Your task to perform on an android device: Clear the cart on newegg. Add acer predator to the cart on newegg Image 0: 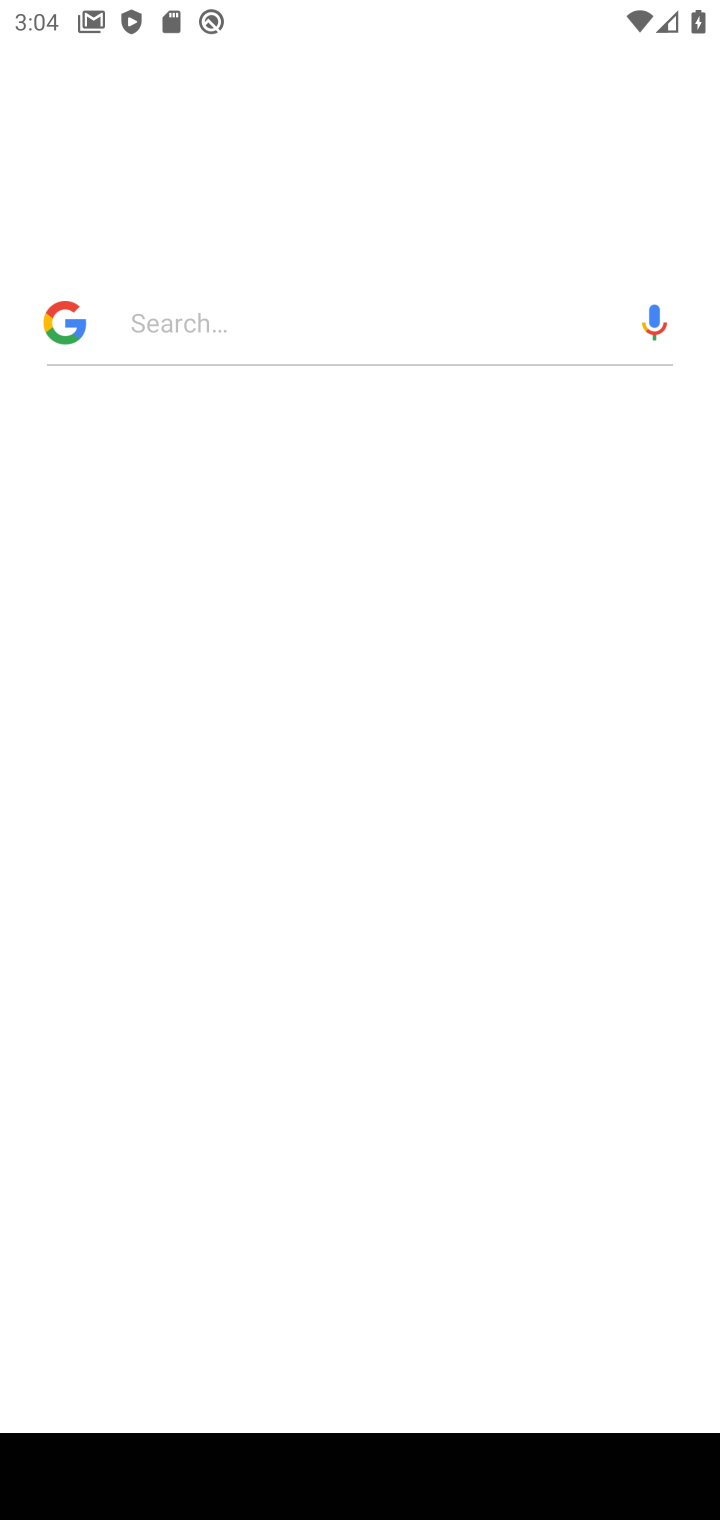
Step 0: press home button
Your task to perform on an android device: Clear the cart on newegg. Add acer predator to the cart on newegg Image 1: 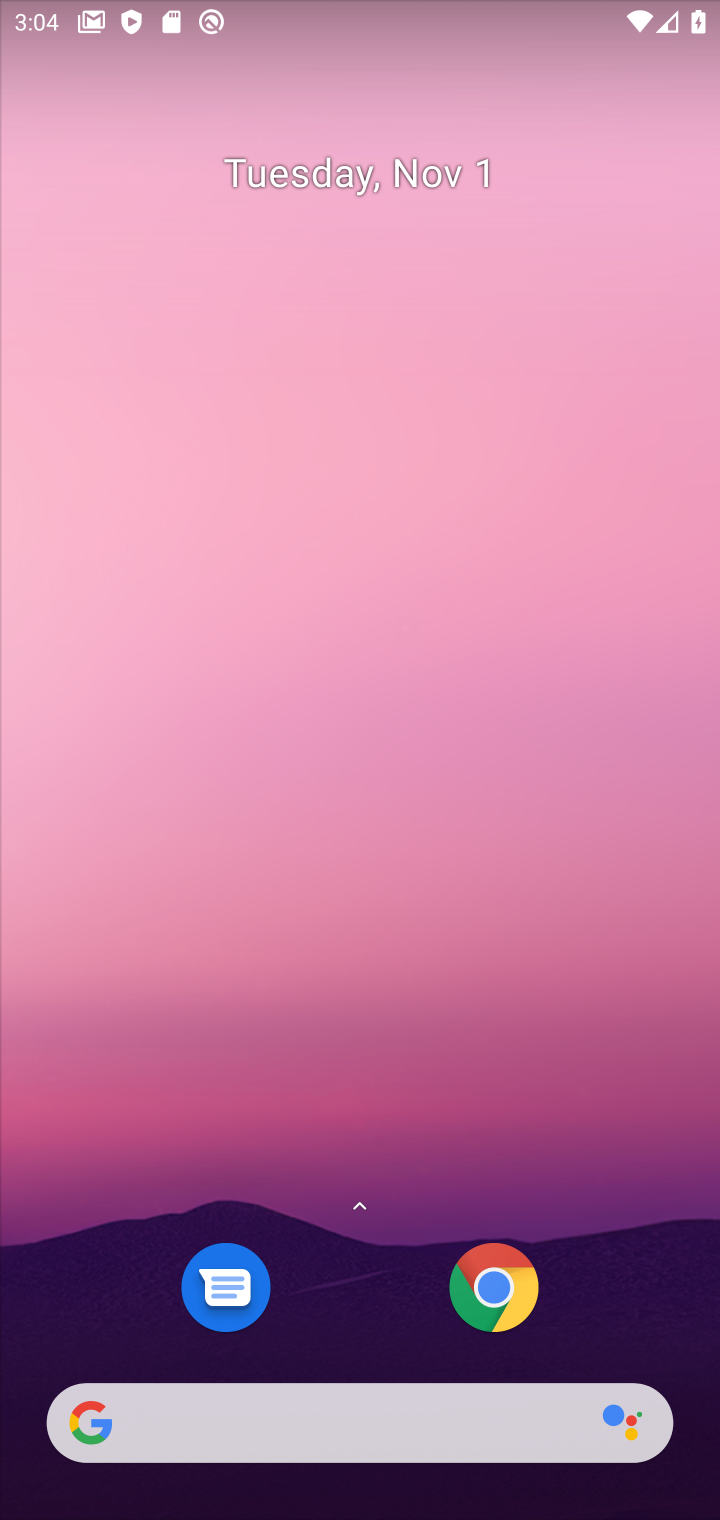
Step 1: drag from (391, 1247) to (530, 132)
Your task to perform on an android device: Clear the cart on newegg. Add acer predator to the cart on newegg Image 2: 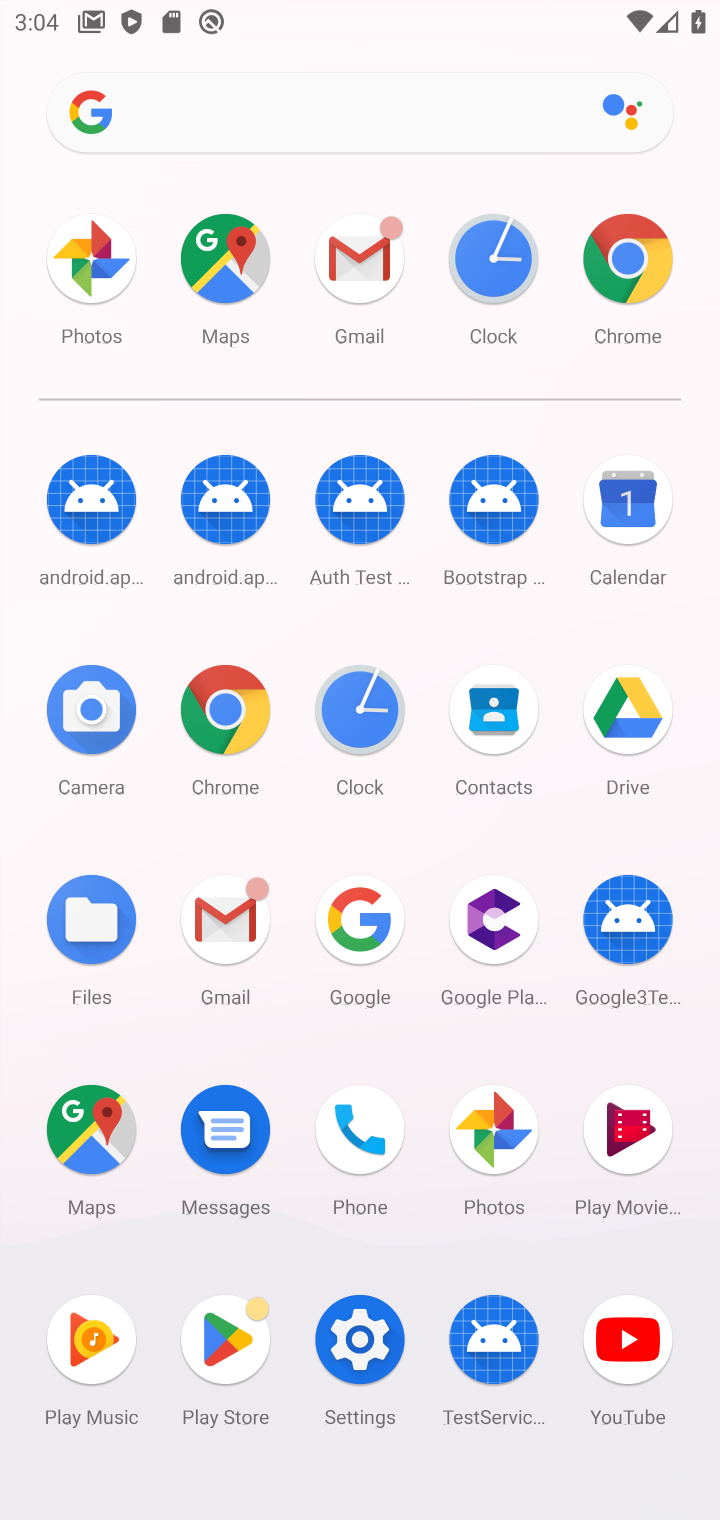
Step 2: click (231, 730)
Your task to perform on an android device: Clear the cart on newegg. Add acer predator to the cart on newegg Image 3: 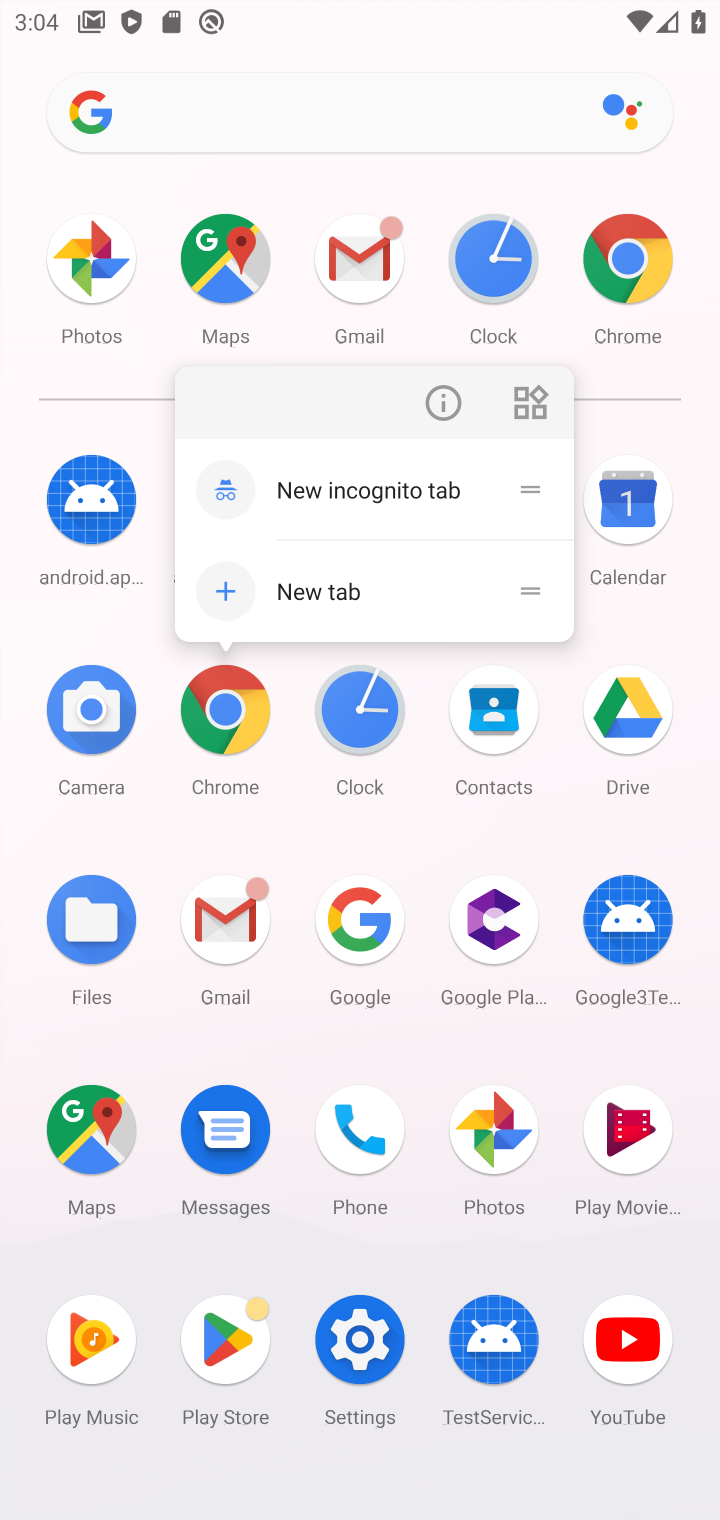
Step 3: click (226, 714)
Your task to perform on an android device: Clear the cart on newegg. Add acer predator to the cart on newegg Image 4: 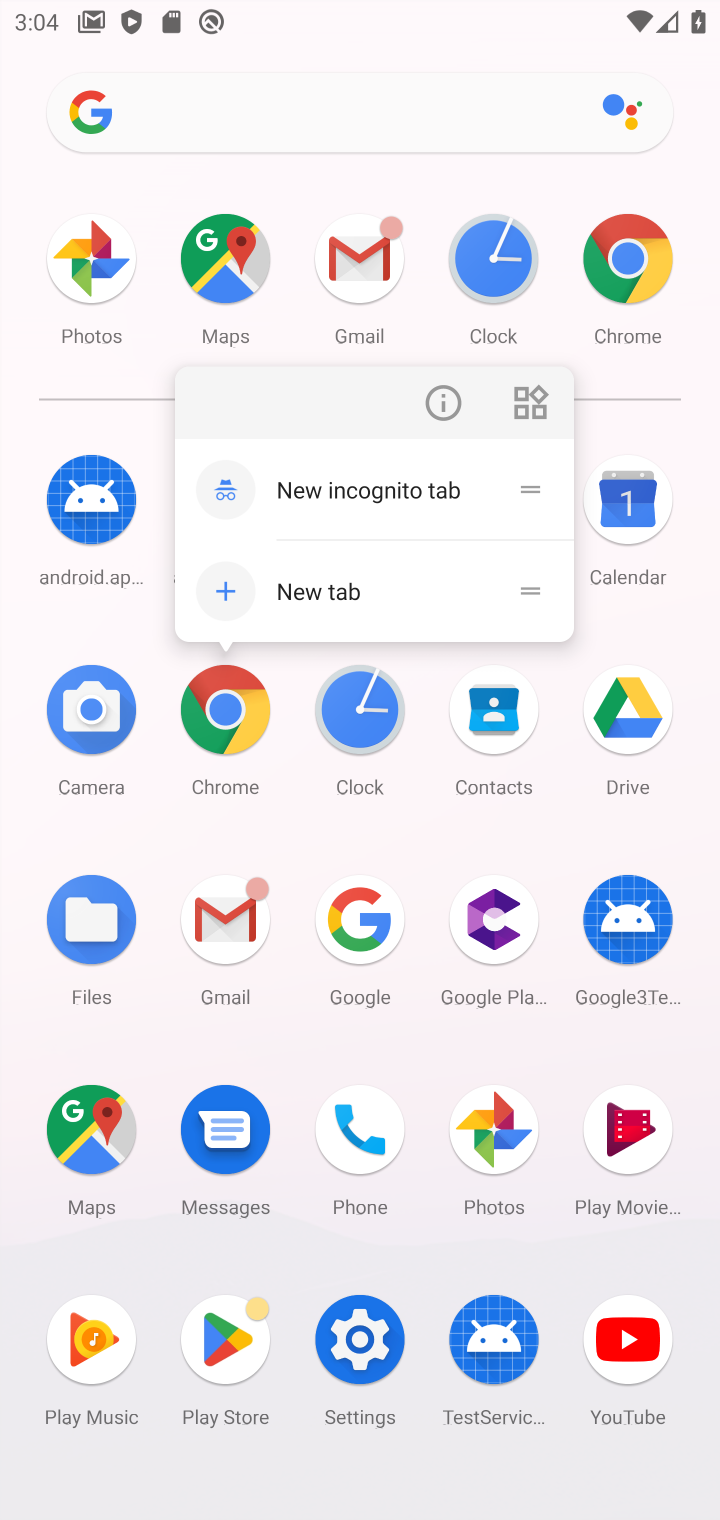
Step 4: click (228, 714)
Your task to perform on an android device: Clear the cart on newegg. Add acer predator to the cart on newegg Image 5: 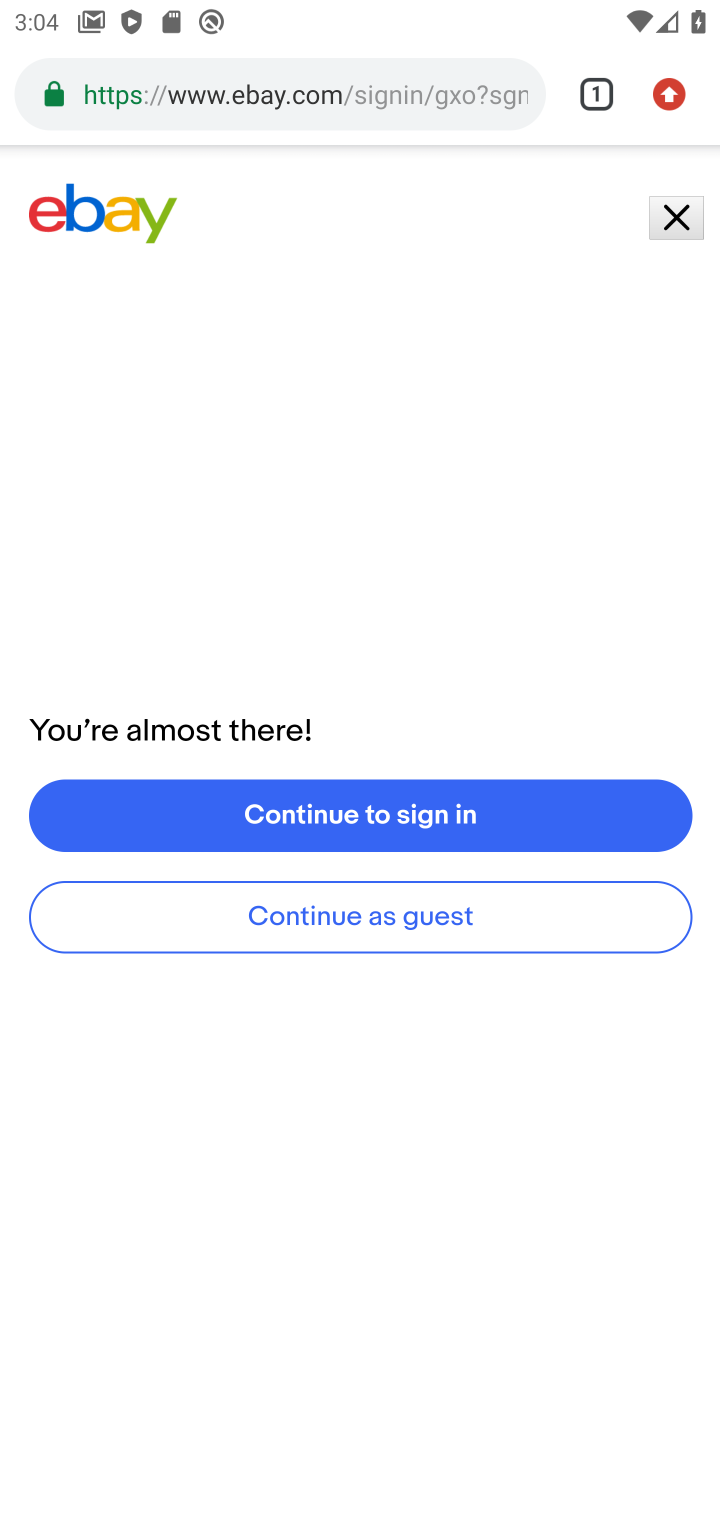
Step 5: click (413, 91)
Your task to perform on an android device: Clear the cart on newegg. Add acer predator to the cart on newegg Image 6: 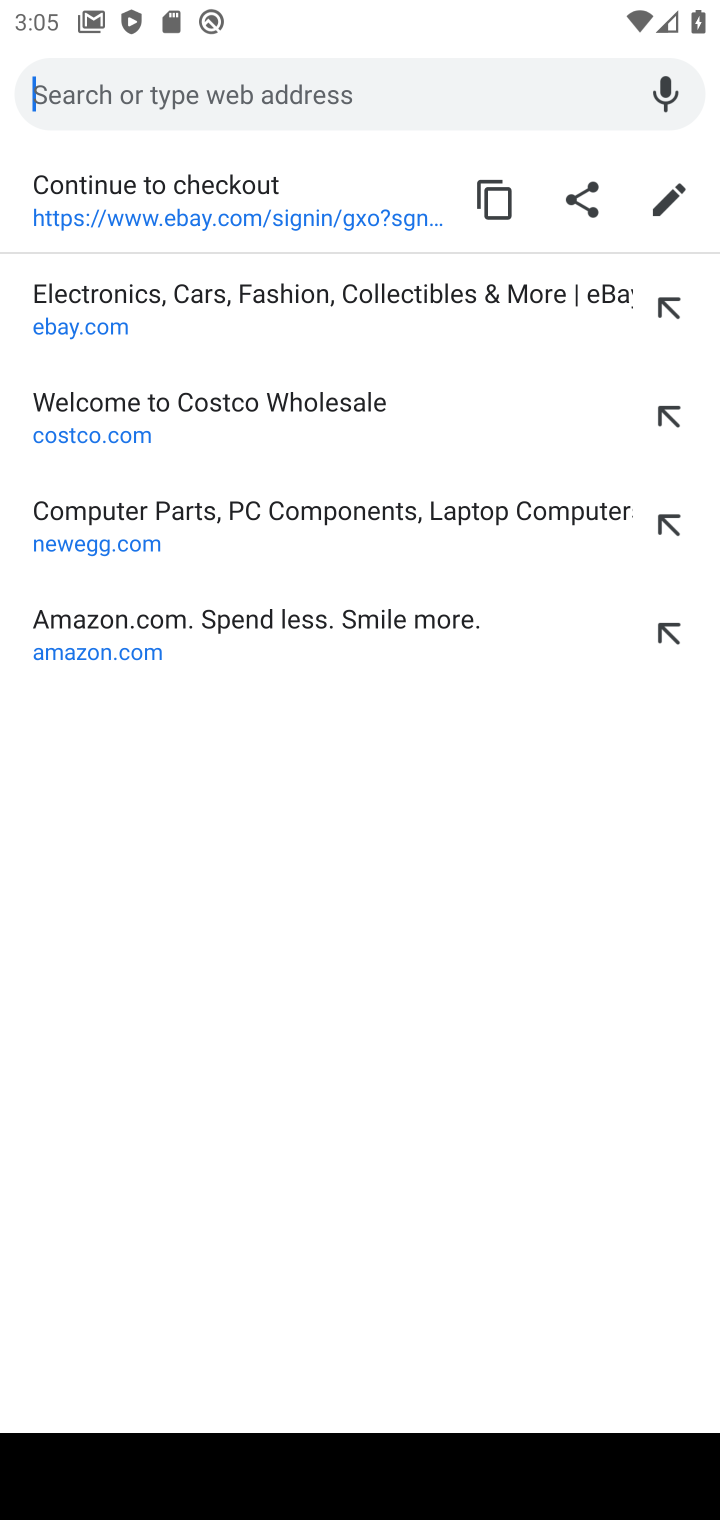
Step 6: type "newegg.com"
Your task to perform on an android device: Clear the cart on newegg. Add acer predator to the cart on newegg Image 7: 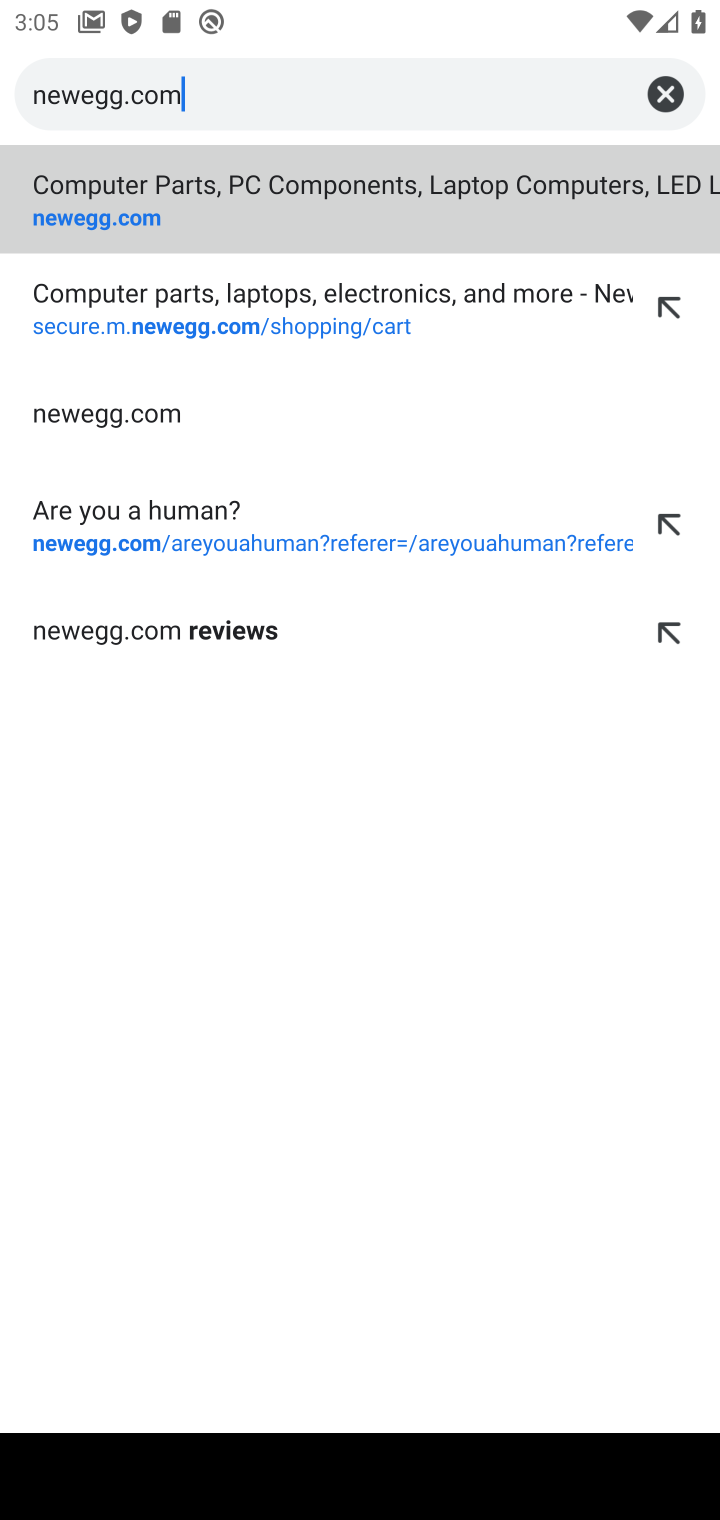
Step 7: press enter
Your task to perform on an android device: Clear the cart on newegg. Add acer predator to the cart on newegg Image 8: 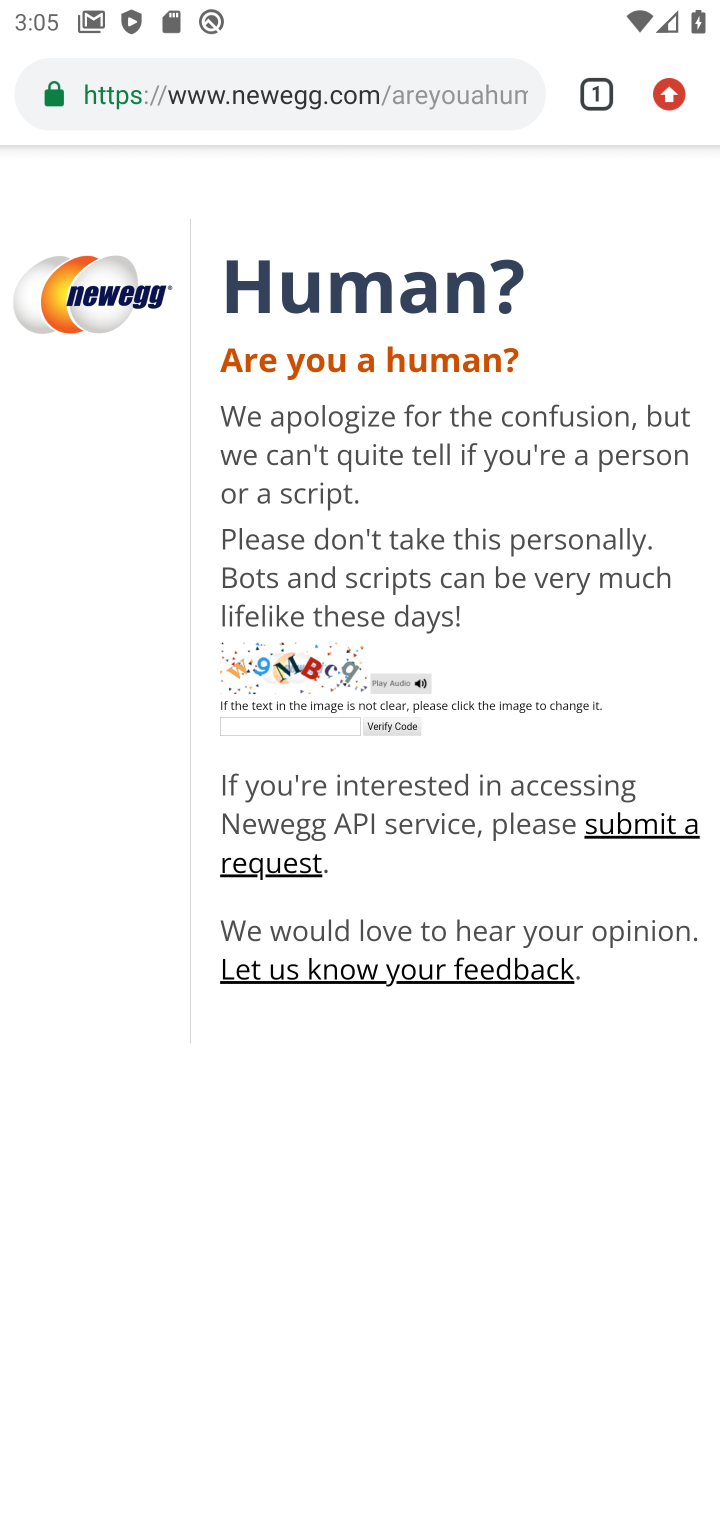
Step 8: click (309, 741)
Your task to perform on an android device: Clear the cart on newegg. Add acer predator to the cart on newegg Image 9: 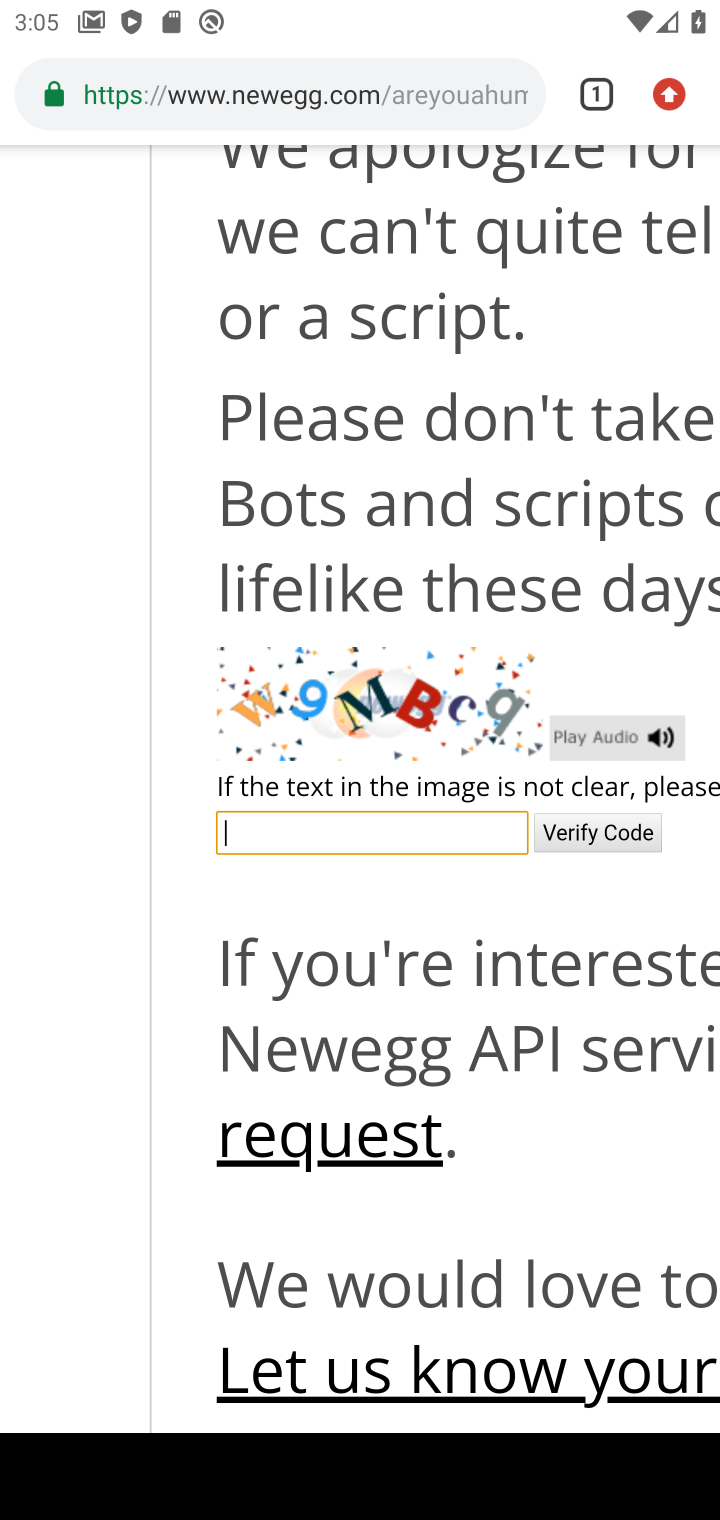
Step 9: type "W9"
Your task to perform on an android device: Clear the cart on newegg. Add acer predator to the cart on newegg Image 10: 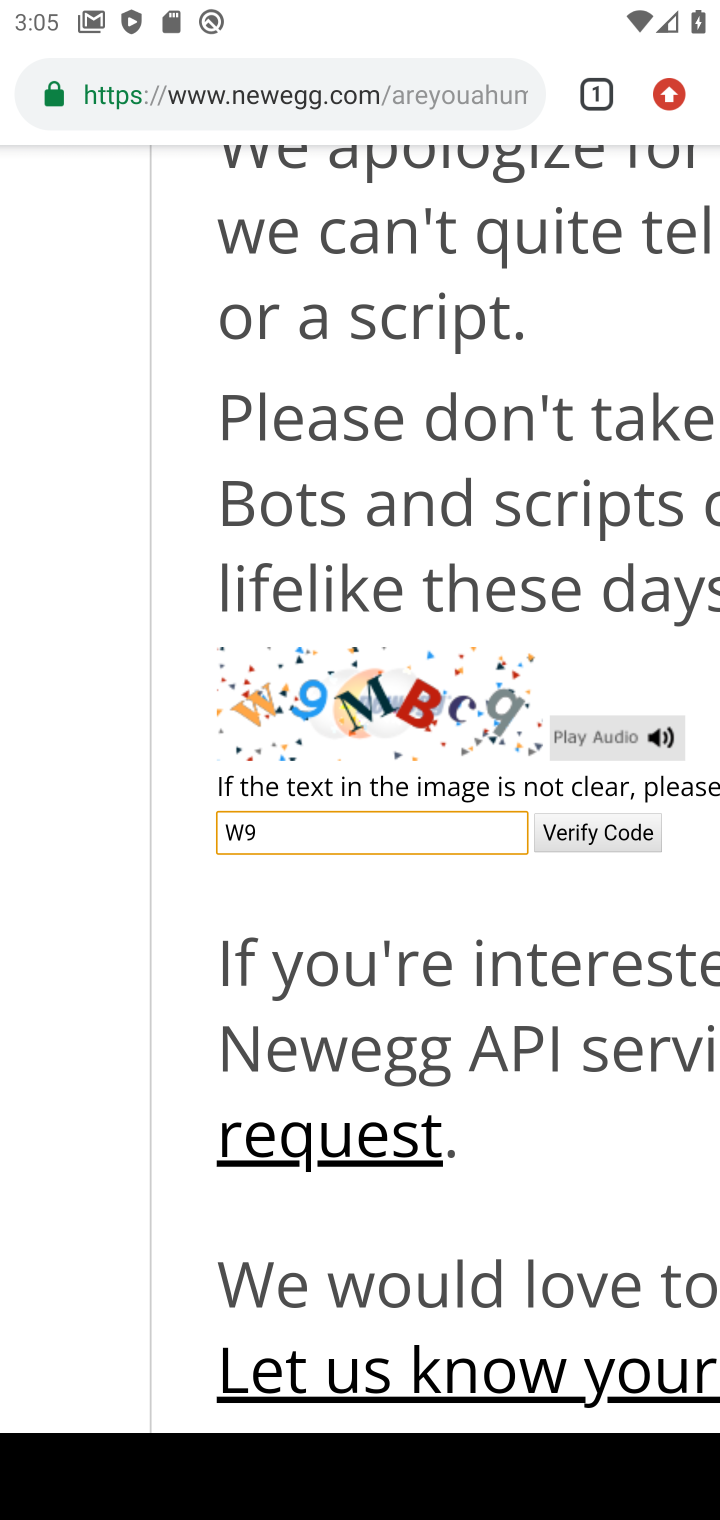
Step 10: type "MBcq"
Your task to perform on an android device: Clear the cart on newegg. Add acer predator to the cart on newegg Image 11: 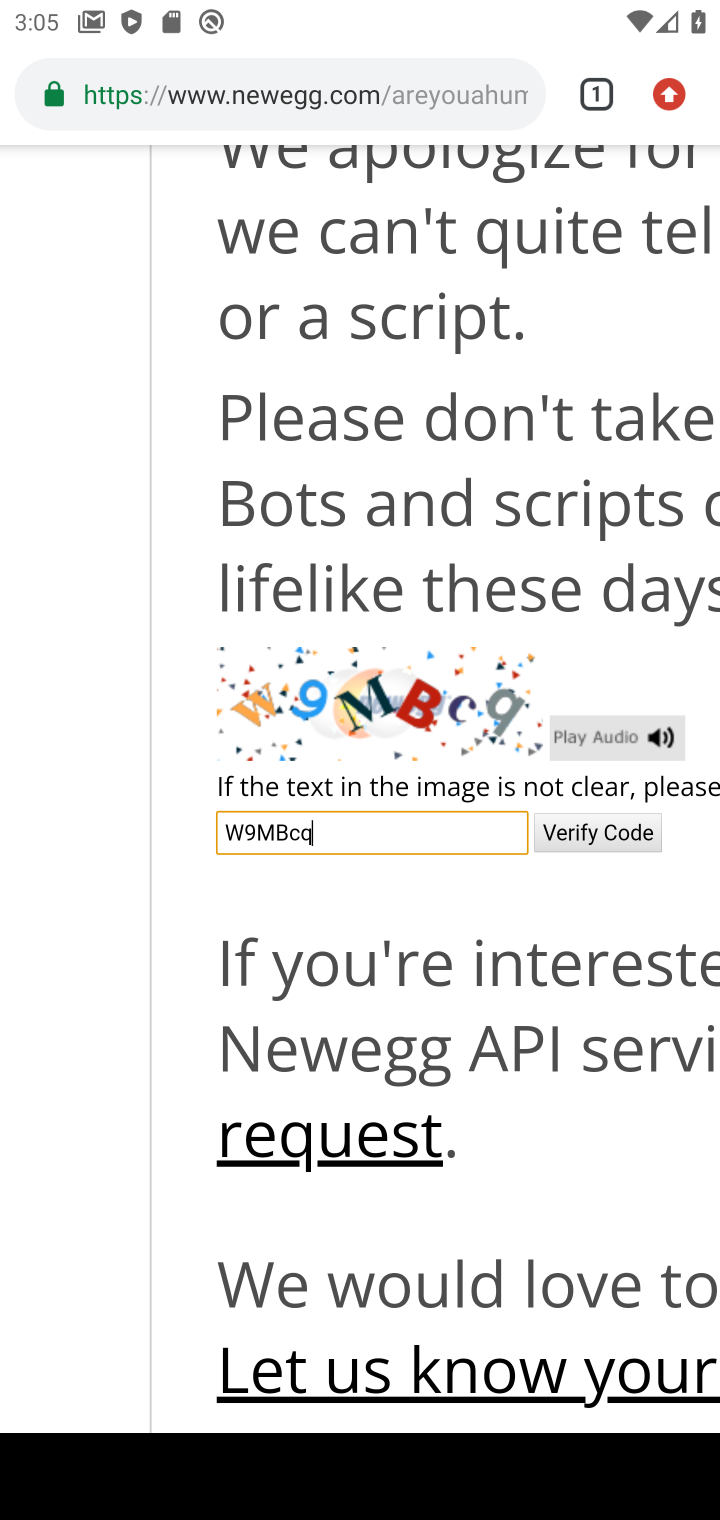
Step 11: click (627, 833)
Your task to perform on an android device: Clear the cart on newegg. Add acer predator to the cart on newegg Image 12: 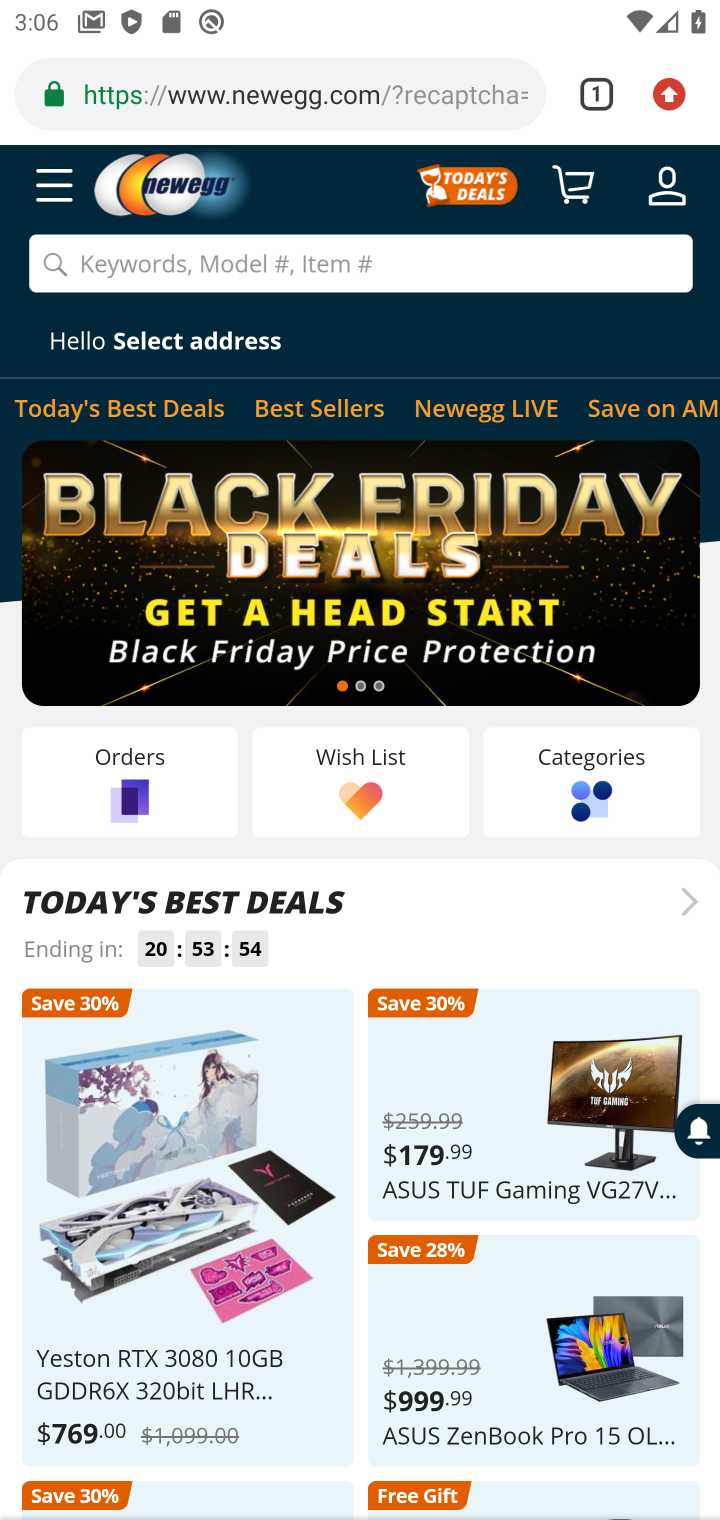
Step 12: drag from (492, 1198) to (616, 479)
Your task to perform on an android device: Clear the cart on newegg. Add acer predator to the cart on newegg Image 13: 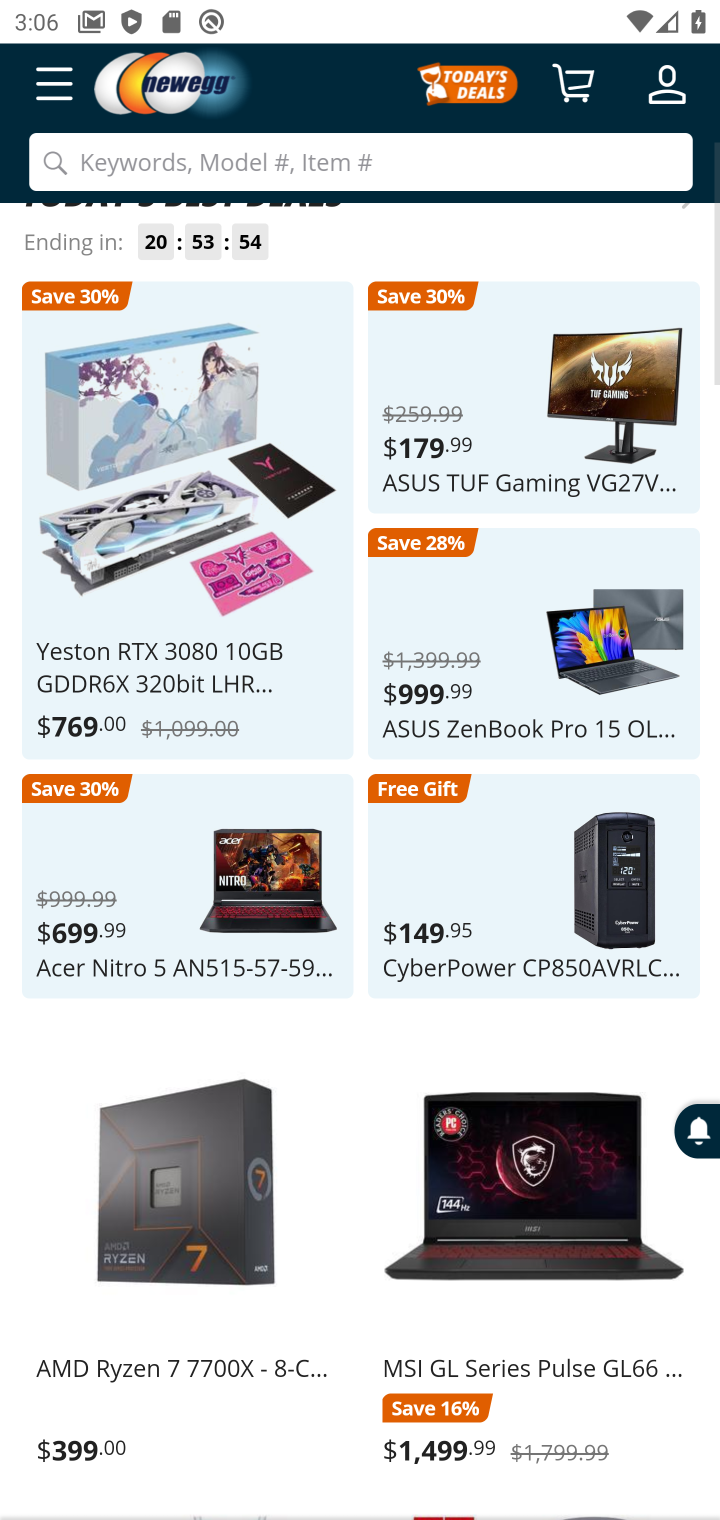
Step 13: drag from (424, 1234) to (460, 621)
Your task to perform on an android device: Clear the cart on newegg. Add acer predator to the cart on newegg Image 14: 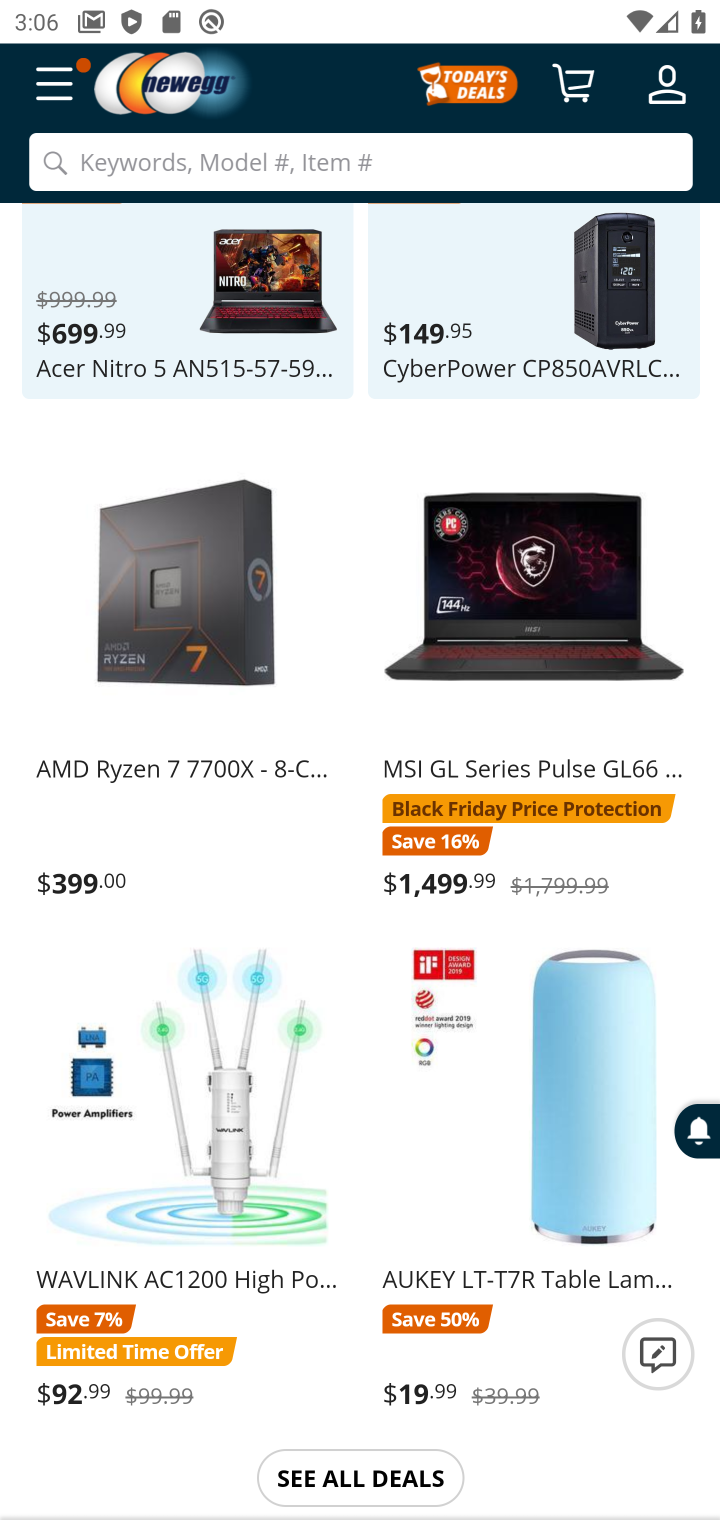
Step 14: drag from (455, 669) to (401, 1227)
Your task to perform on an android device: Clear the cart on newegg. Add acer predator to the cart on newegg Image 15: 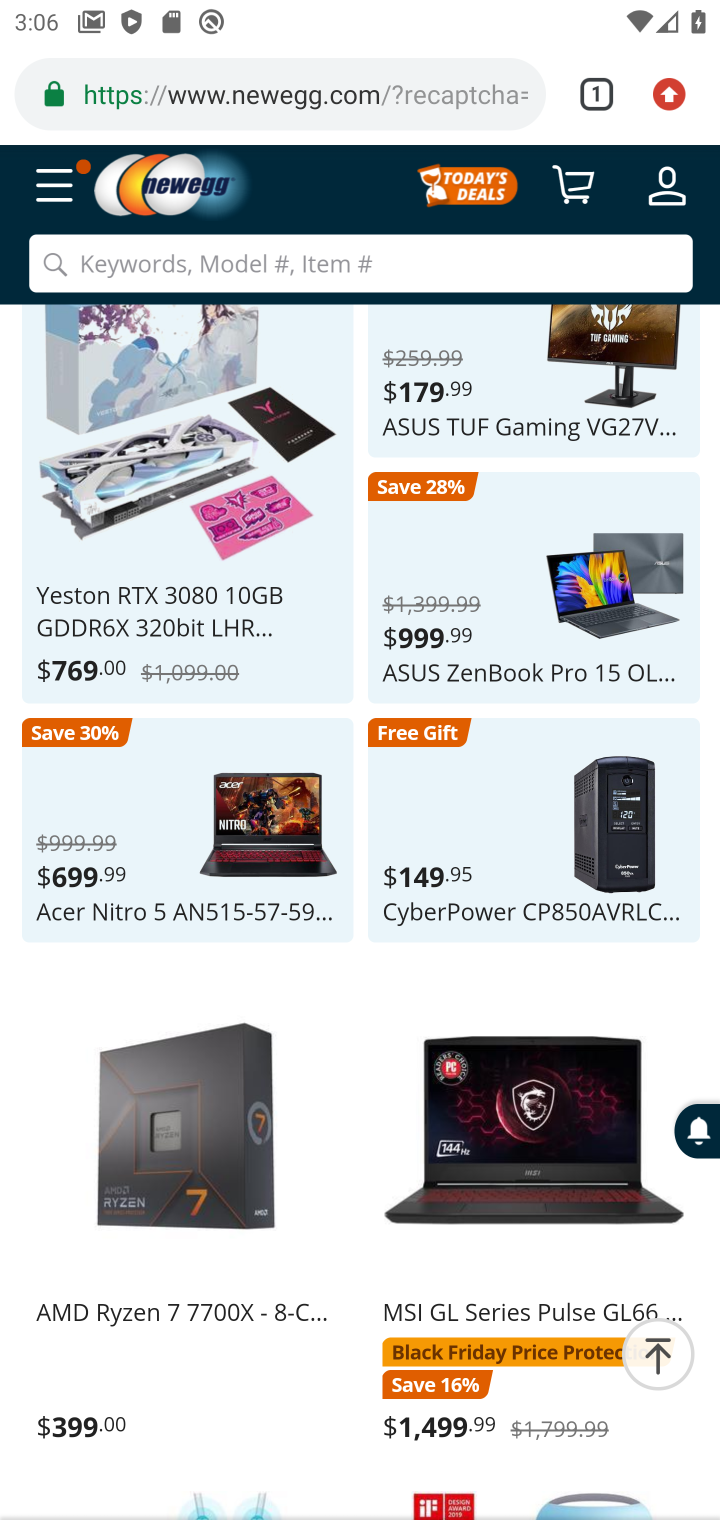
Step 15: click (579, 179)
Your task to perform on an android device: Clear the cart on newegg. Add acer predator to the cart on newegg Image 16: 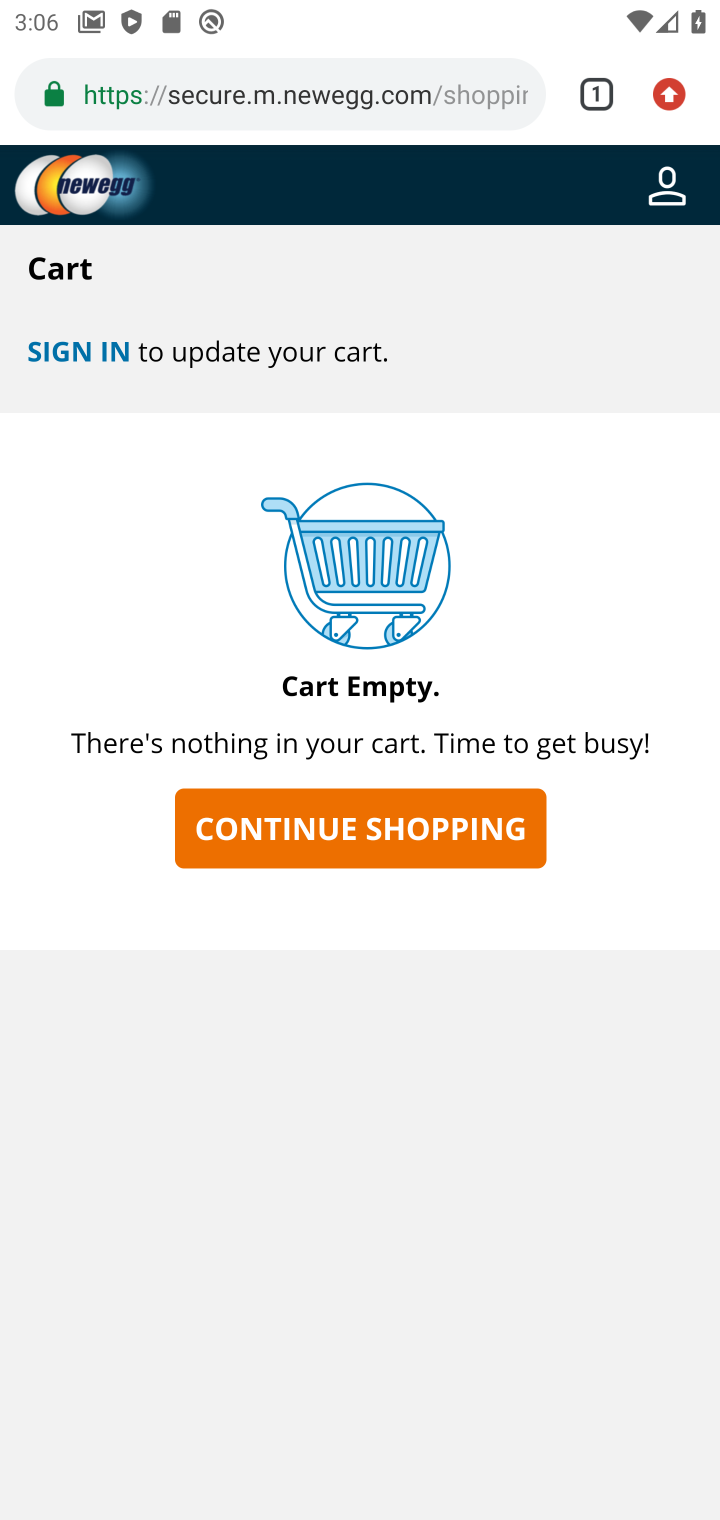
Step 16: click (367, 800)
Your task to perform on an android device: Clear the cart on newegg. Add acer predator to the cart on newegg Image 17: 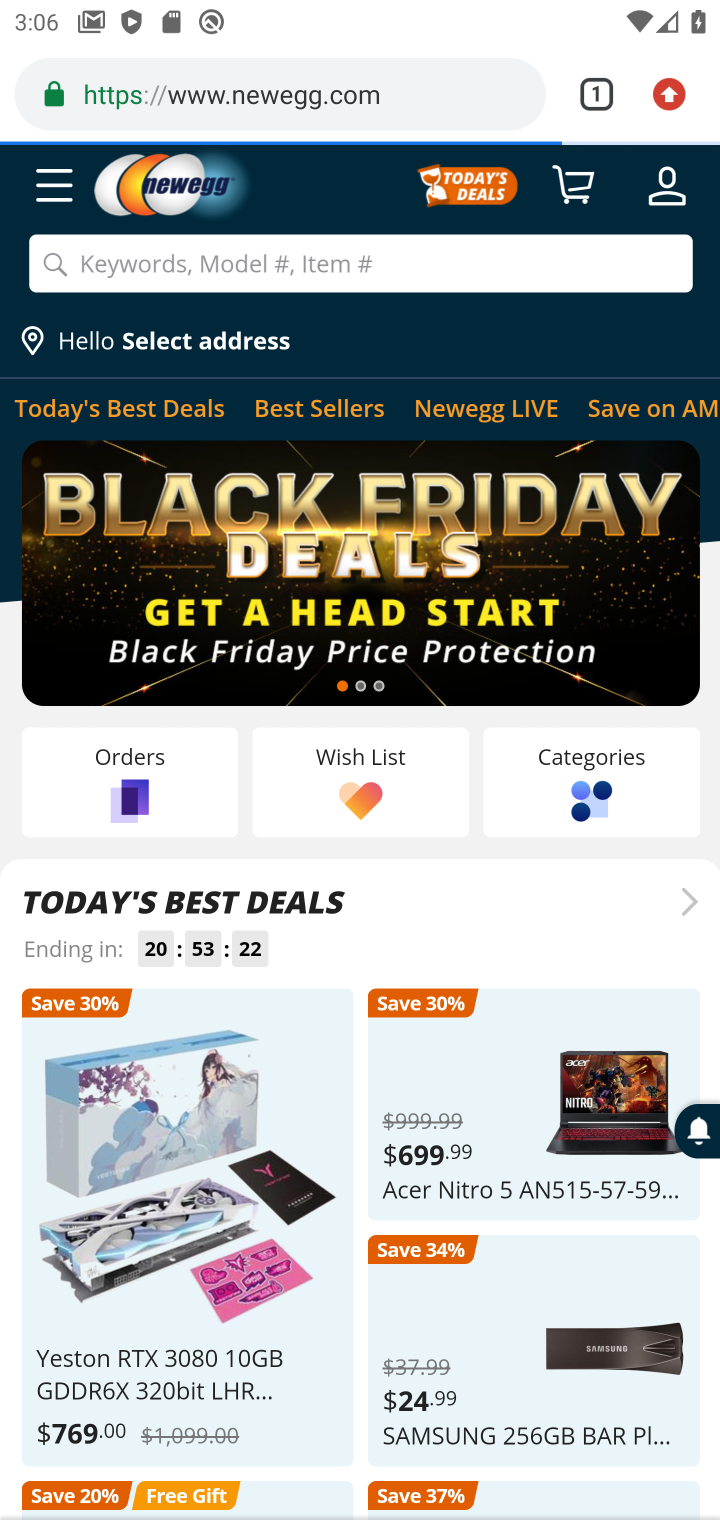
Step 17: click (391, 276)
Your task to perform on an android device: Clear the cart on newegg. Add acer predator to the cart on newegg Image 18: 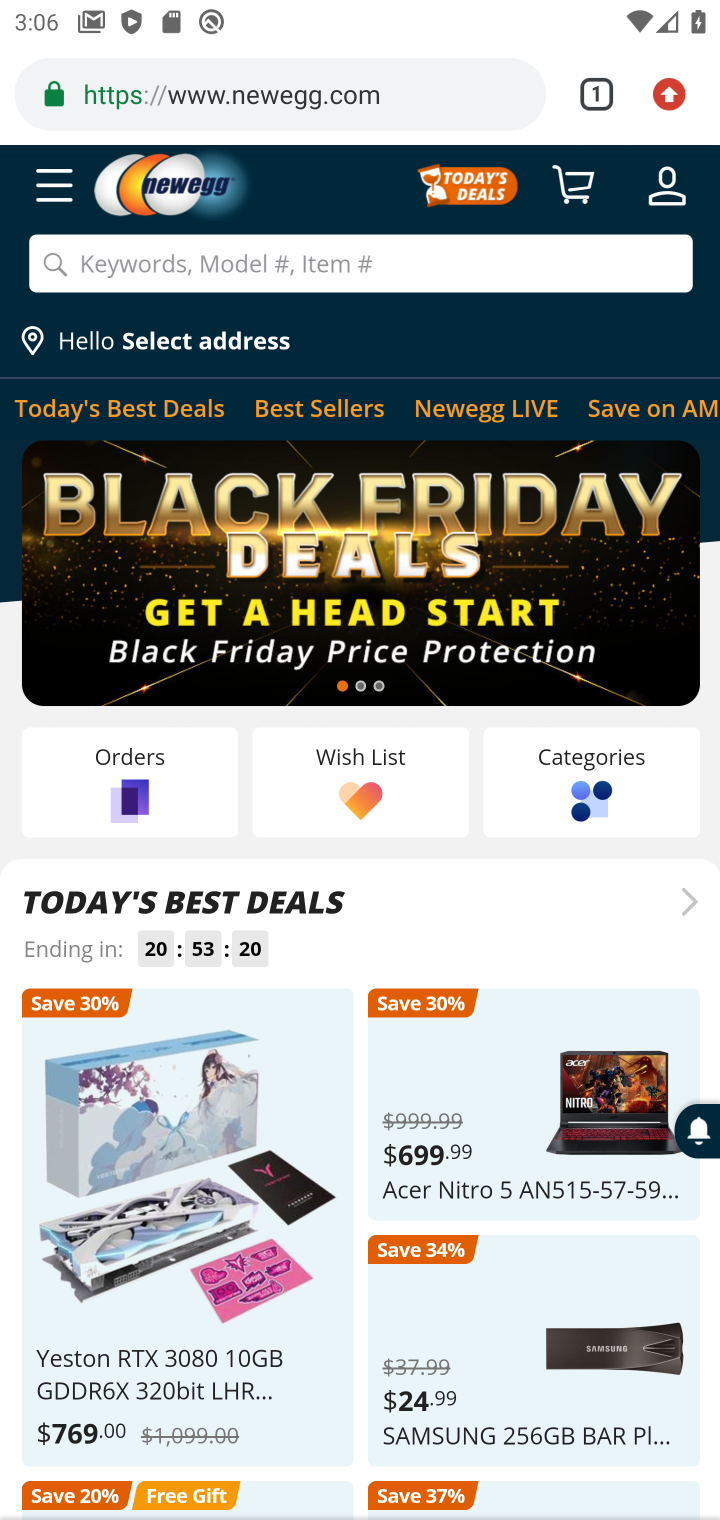
Step 18: click (601, 271)
Your task to perform on an android device: Clear the cart on newegg. Add acer predator to the cart on newegg Image 19: 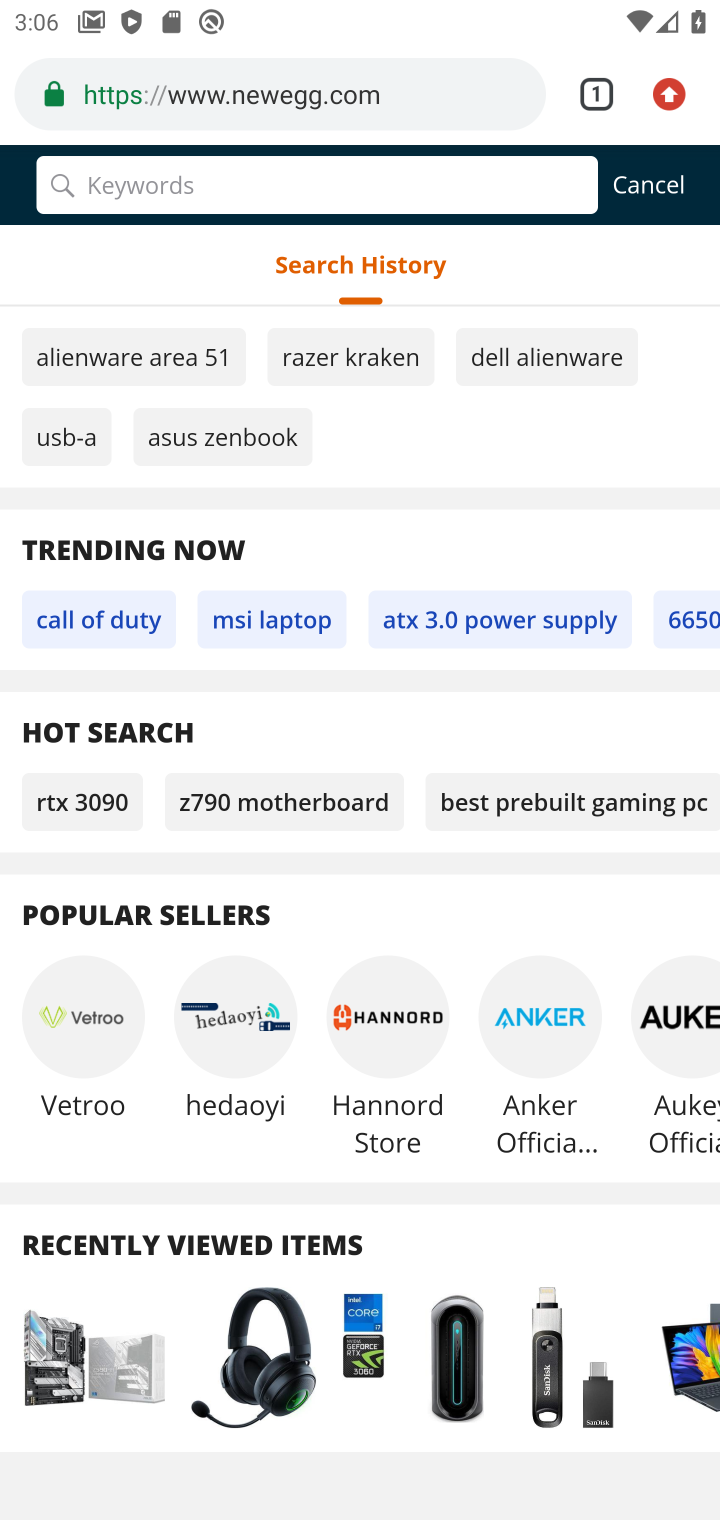
Step 19: click (422, 205)
Your task to perform on an android device: Clear the cart on newegg. Add acer predator to the cart on newegg Image 20: 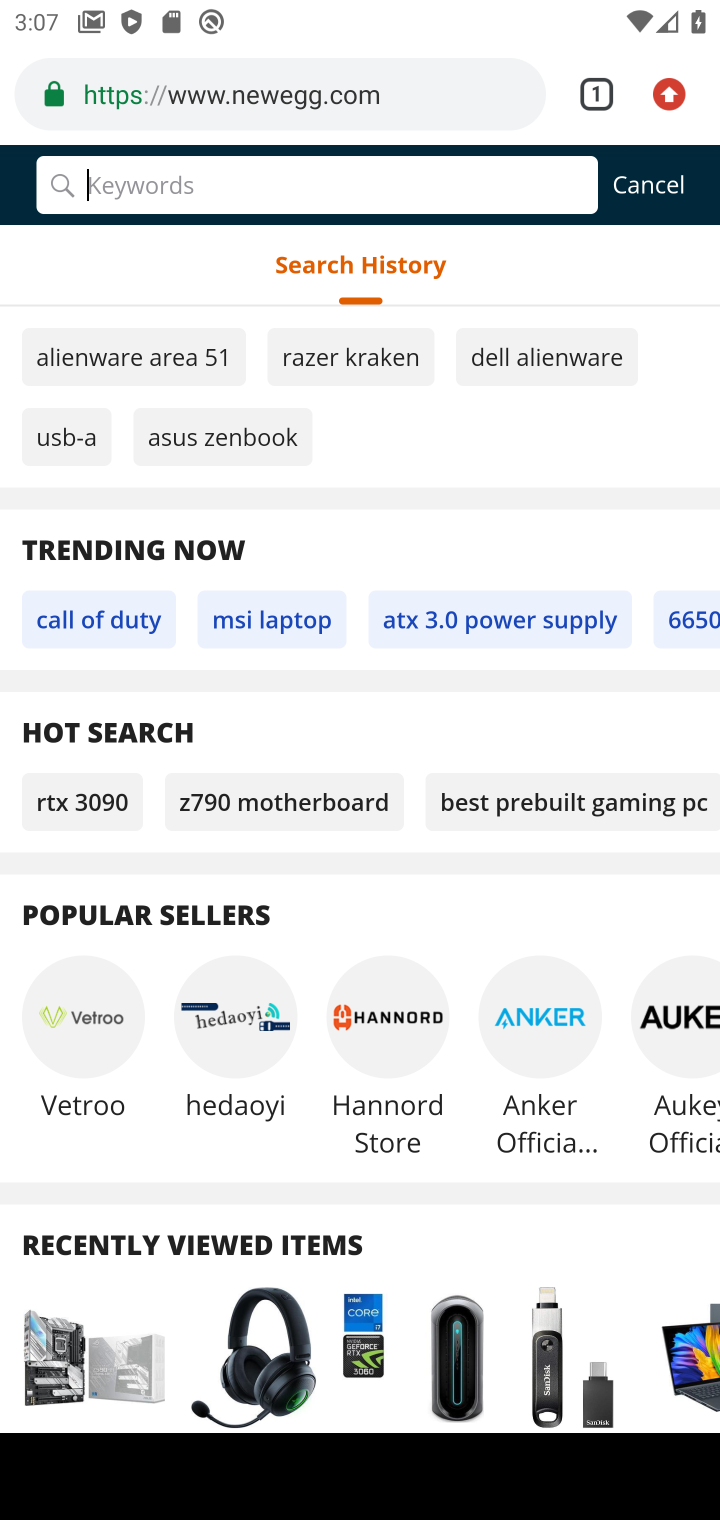
Step 20: type "acer predator"
Your task to perform on an android device: Clear the cart on newegg. Add acer predator to the cart on newegg Image 21: 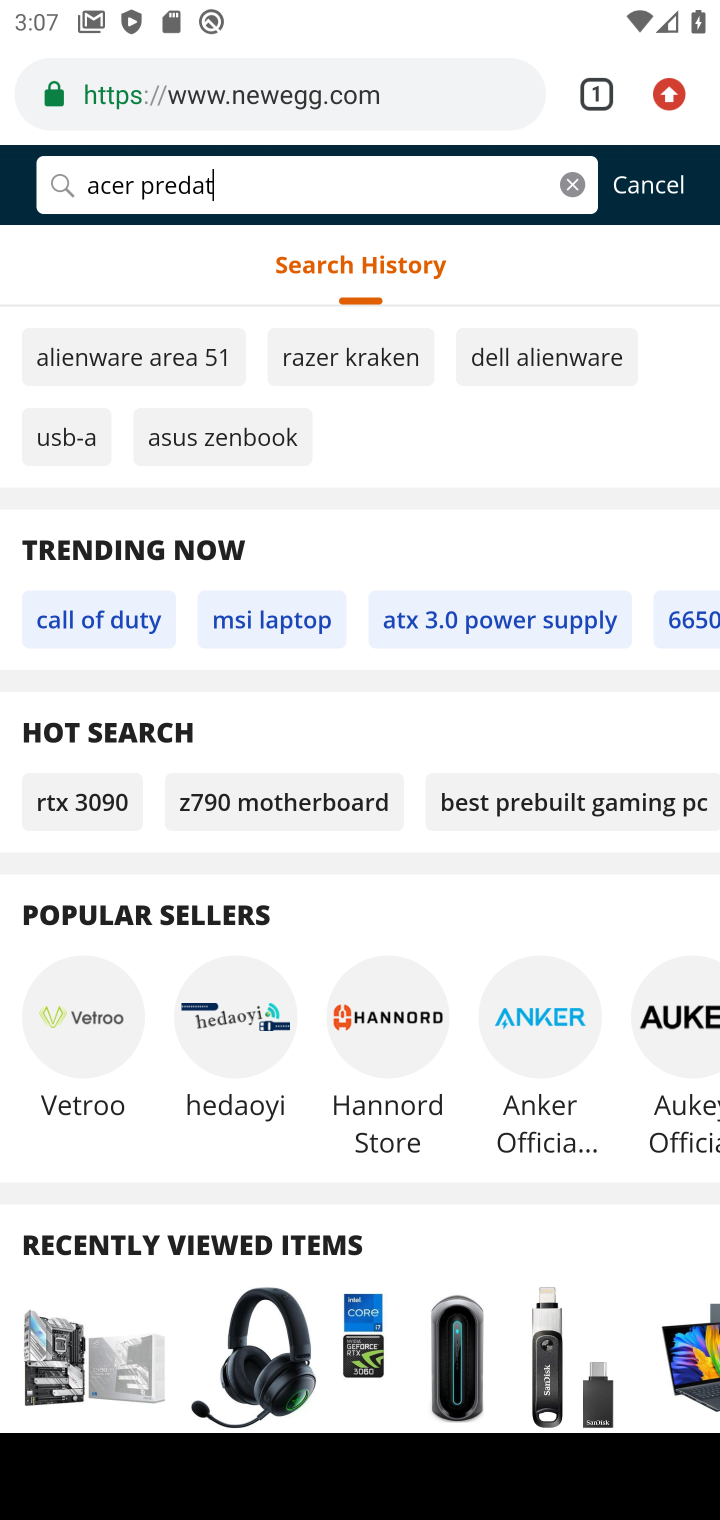
Step 21: press enter
Your task to perform on an android device: Clear the cart on newegg. Add acer predator to the cart on newegg Image 22: 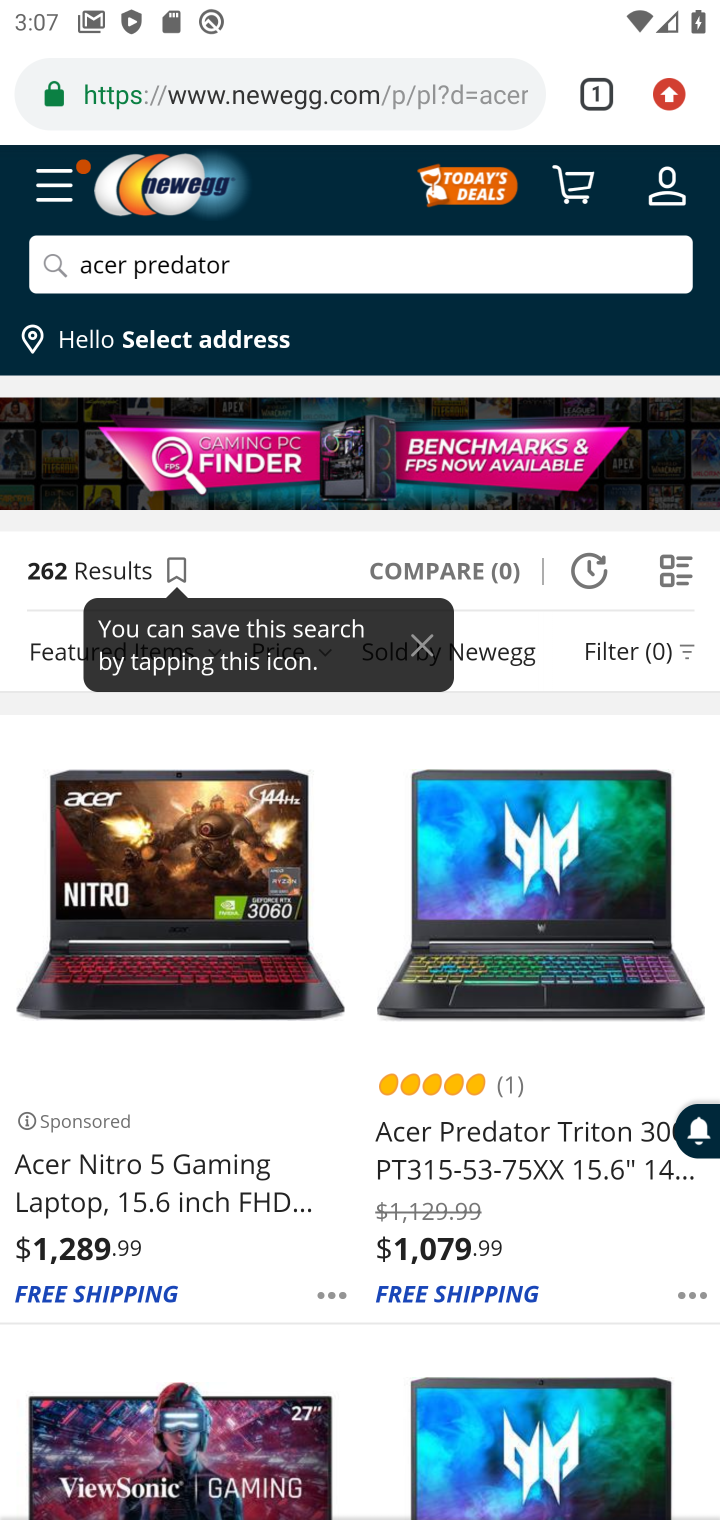
Step 22: click (535, 946)
Your task to perform on an android device: Clear the cart on newegg. Add acer predator to the cart on newegg Image 23: 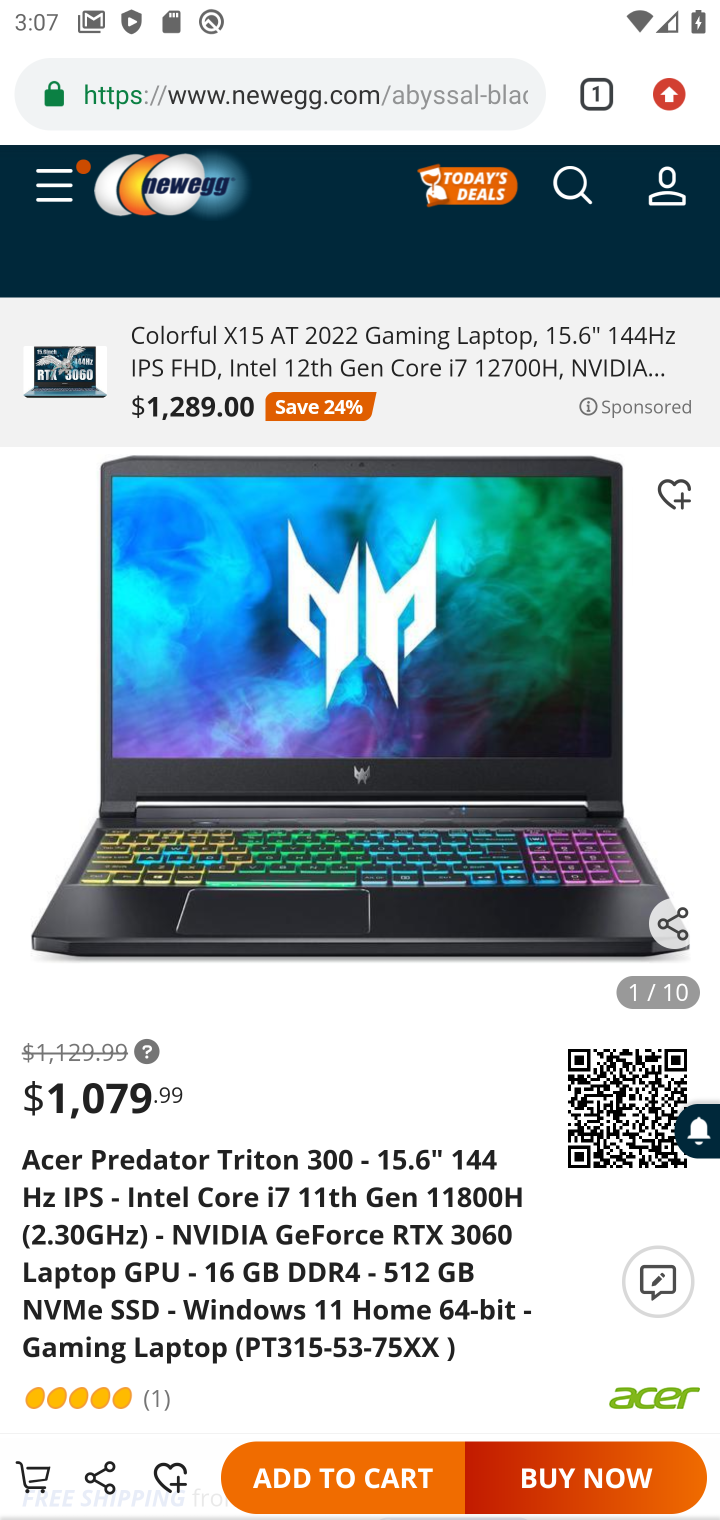
Step 23: click (322, 1482)
Your task to perform on an android device: Clear the cart on newegg. Add acer predator to the cart on newegg Image 24: 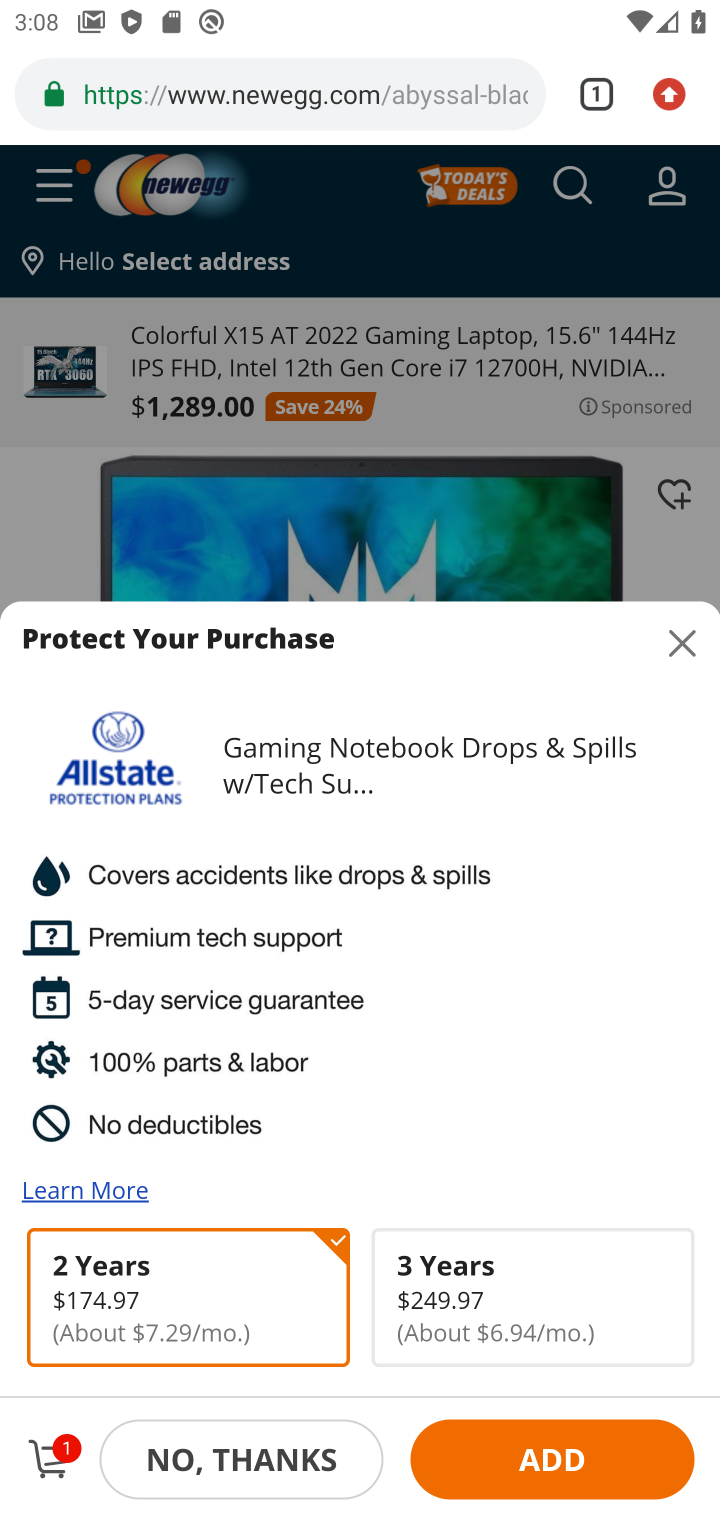
Step 24: click (51, 1467)
Your task to perform on an android device: Clear the cart on newegg. Add acer predator to the cart on newegg Image 25: 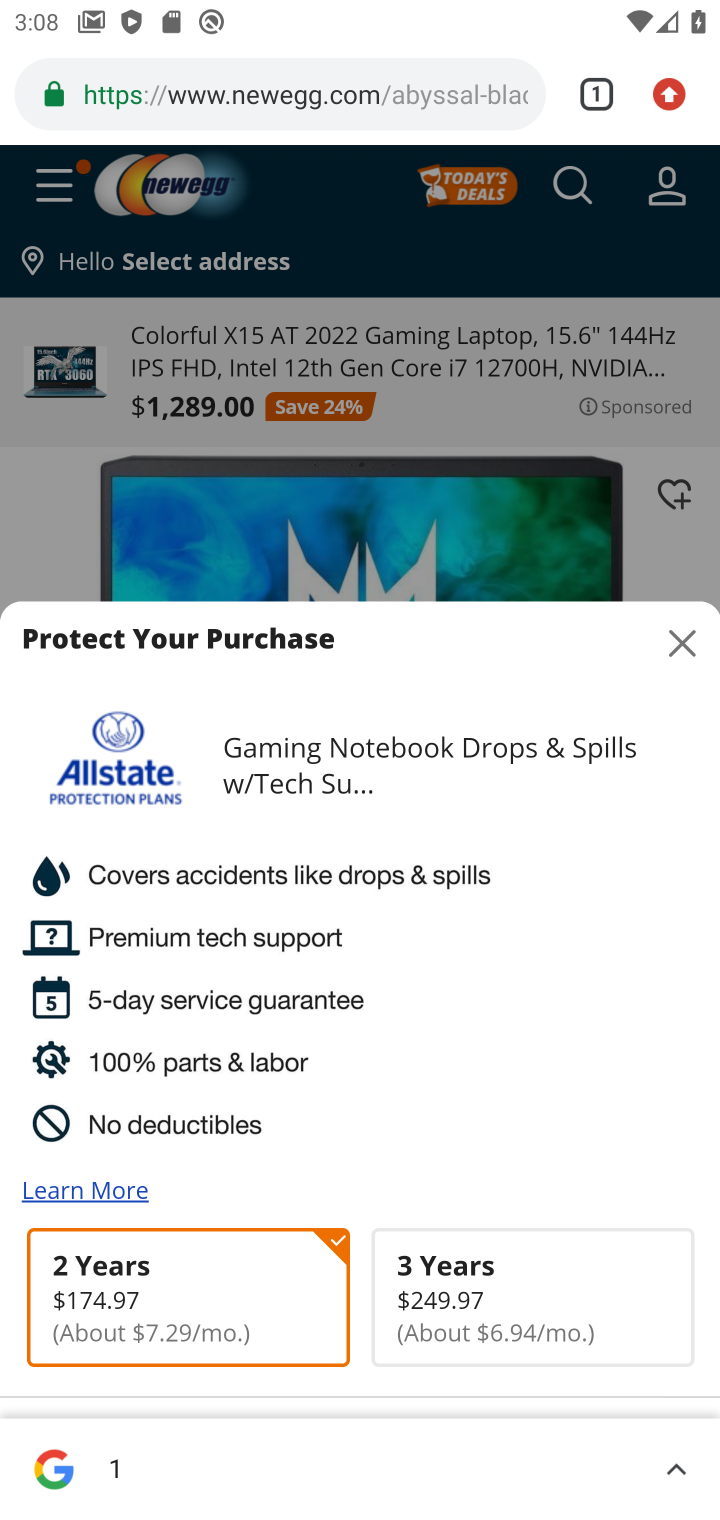
Step 25: click (675, 630)
Your task to perform on an android device: Clear the cart on newegg. Add acer predator to the cart on newegg Image 26: 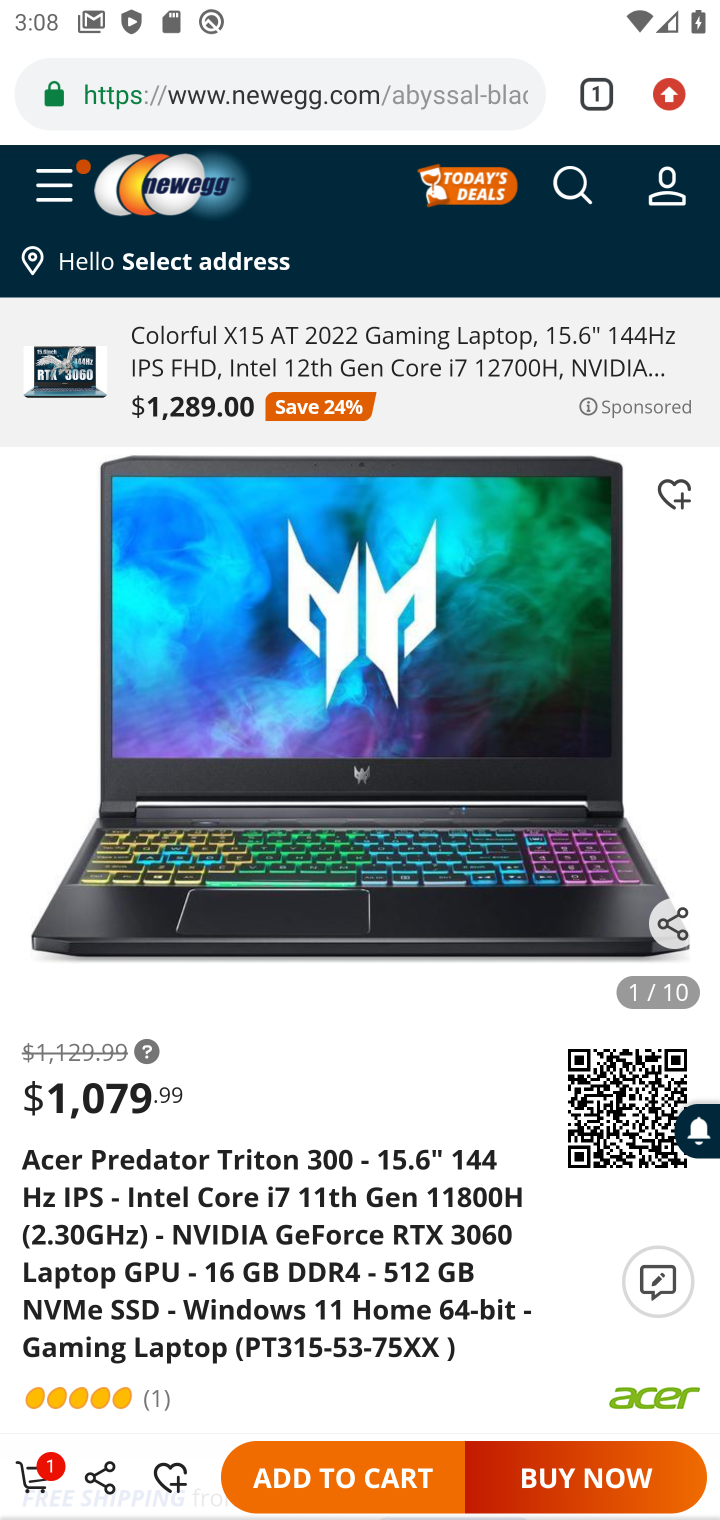
Step 26: click (39, 1480)
Your task to perform on an android device: Clear the cart on newegg. Add acer predator to the cart on newegg Image 27: 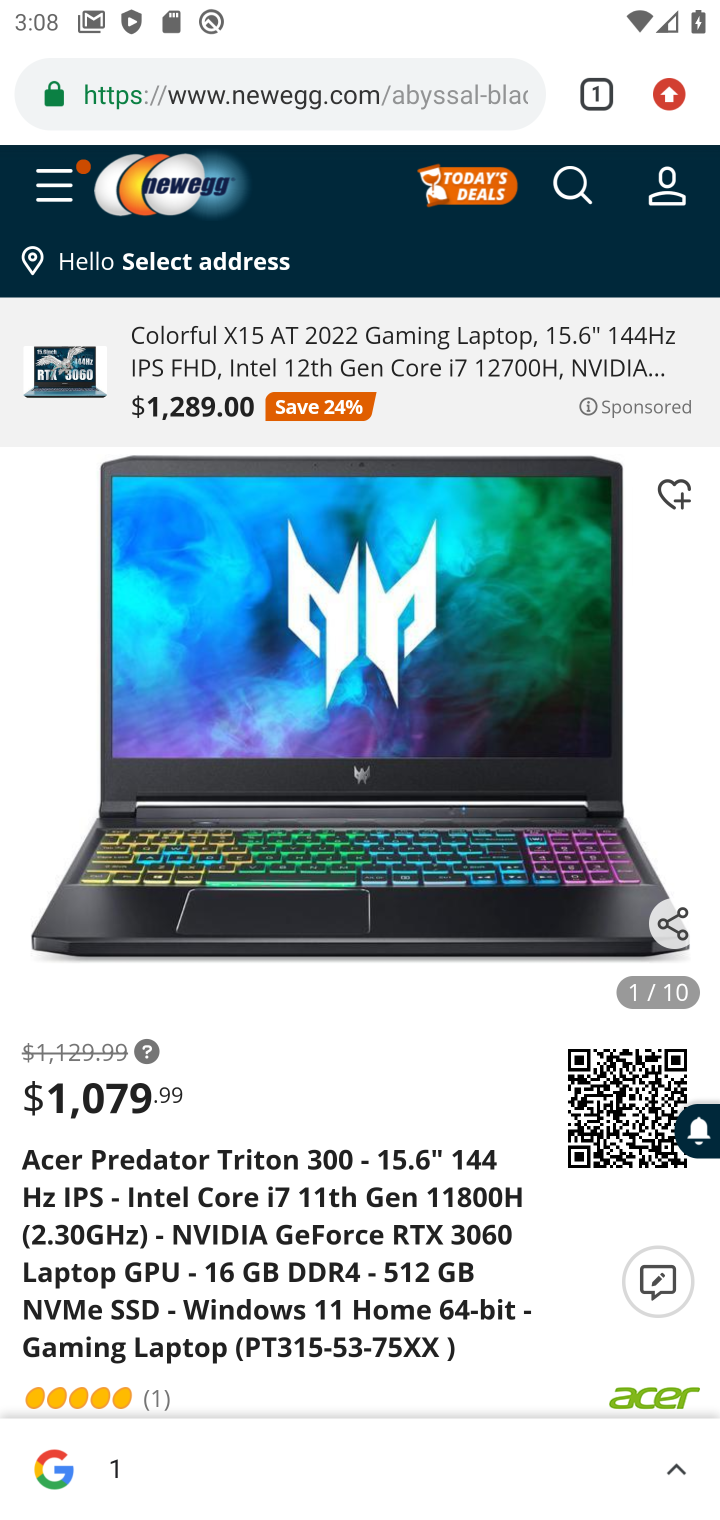
Step 27: drag from (418, 1122) to (413, 507)
Your task to perform on an android device: Clear the cart on newegg. Add acer predator to the cart on newegg Image 28: 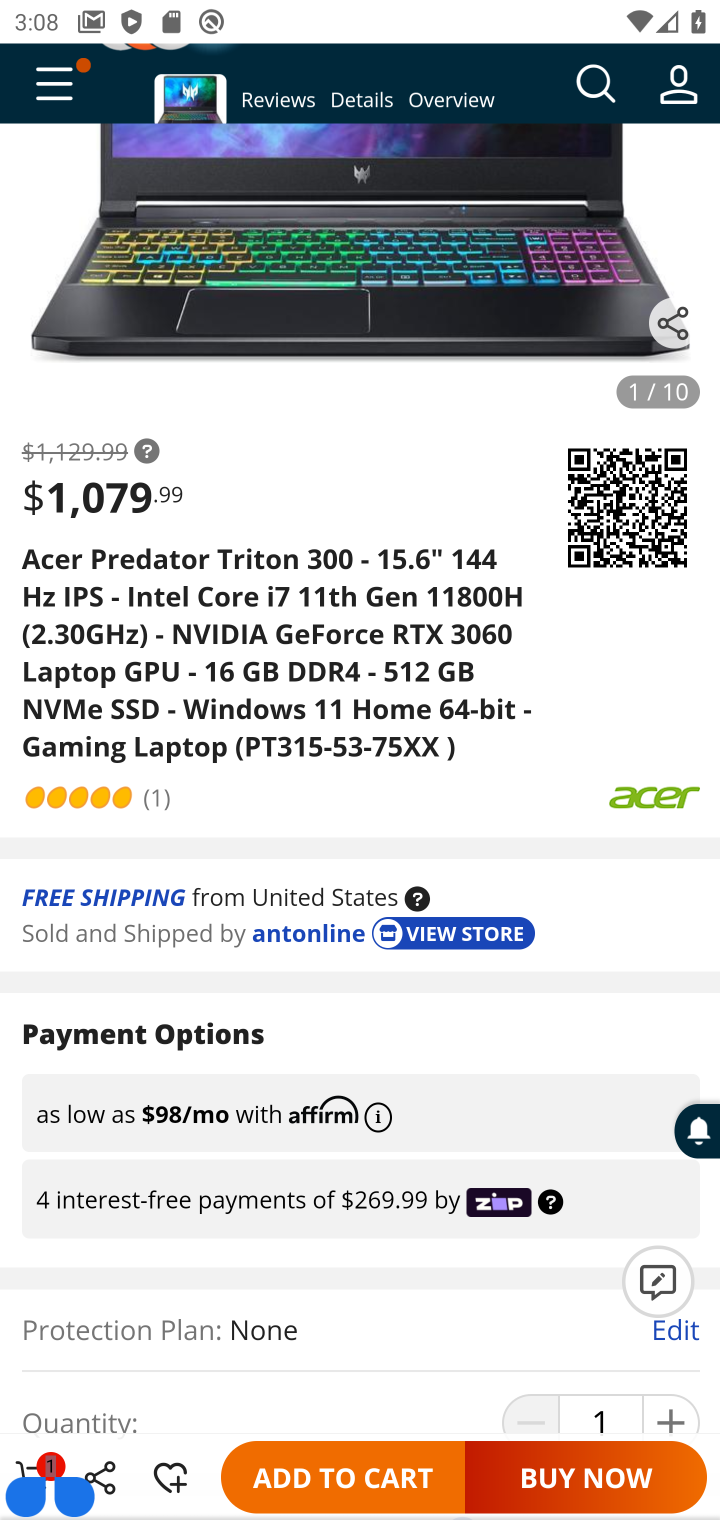
Step 28: click (42, 1468)
Your task to perform on an android device: Clear the cart on newegg. Add acer predator to the cart on newegg Image 29: 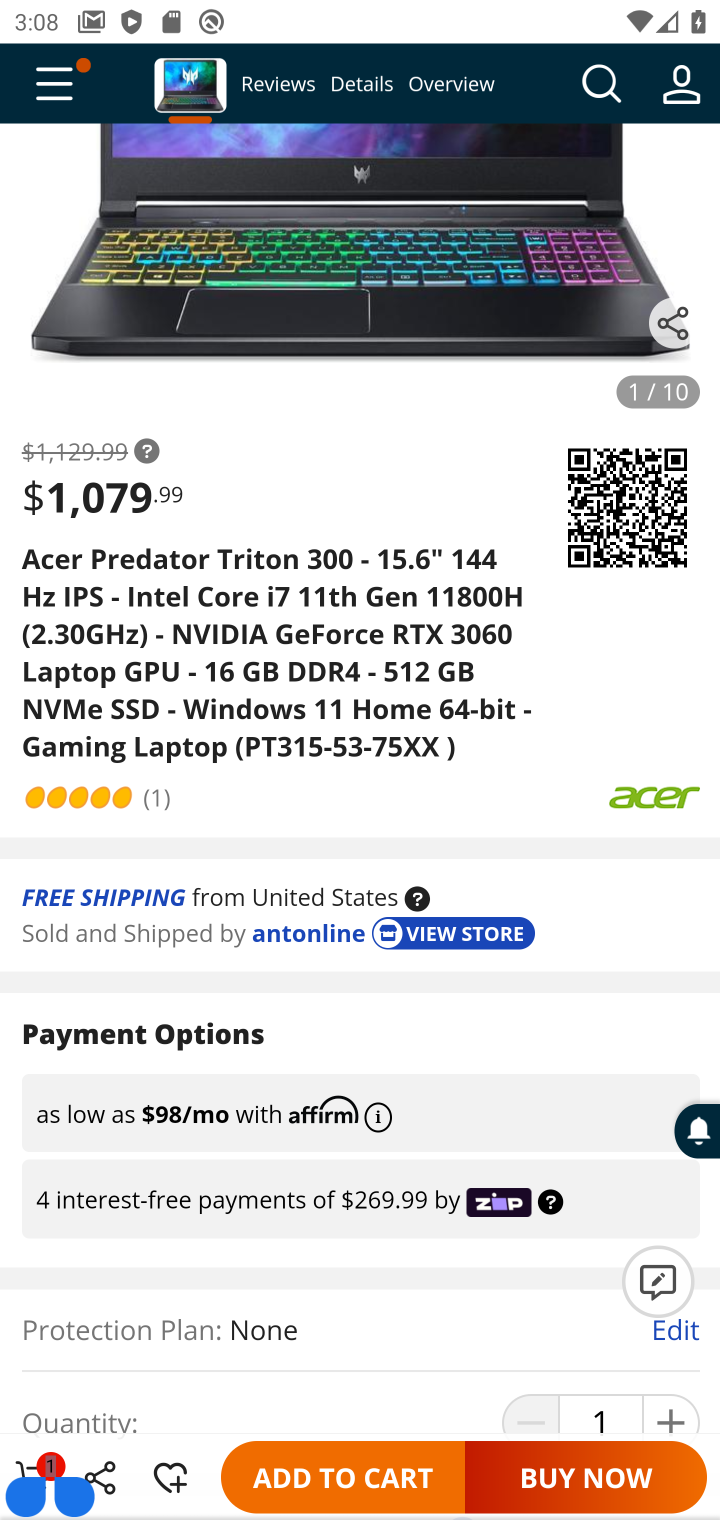
Step 29: click (30, 1473)
Your task to perform on an android device: Clear the cart on newegg. Add acer predator to the cart on newegg Image 30: 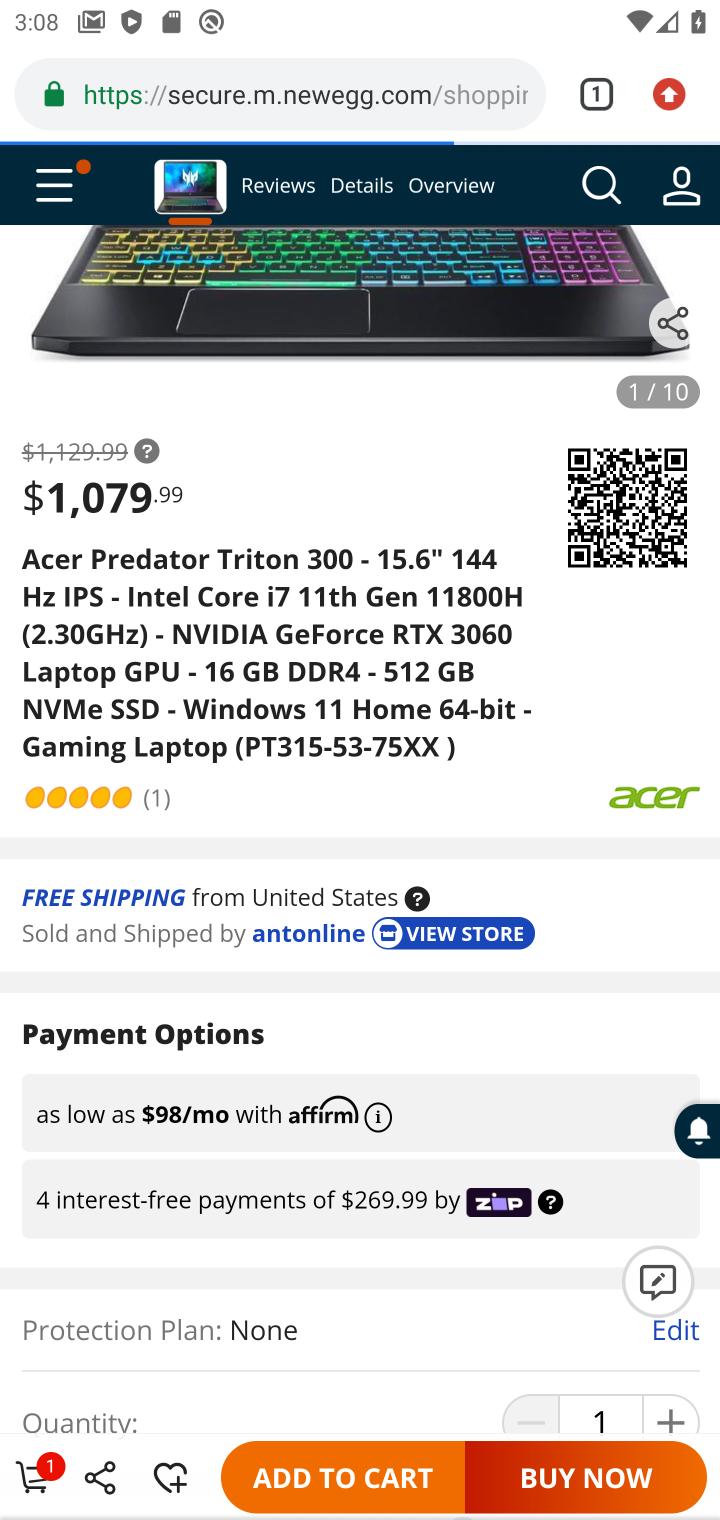
Step 30: click (30, 1473)
Your task to perform on an android device: Clear the cart on newegg. Add acer predator to the cart on newegg Image 31: 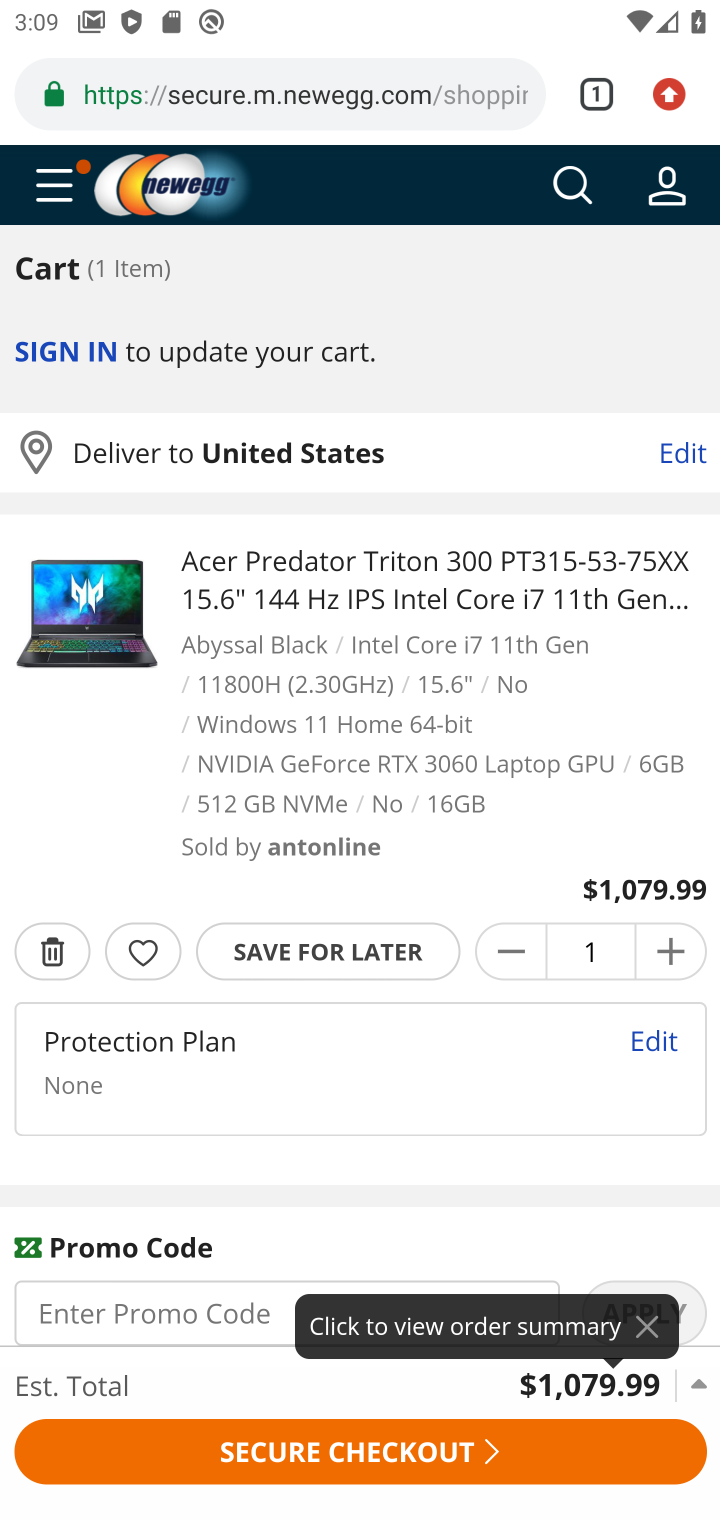
Step 31: task complete